Your task to perform on an android device: Find the nearest electronics store that's open now Image 0: 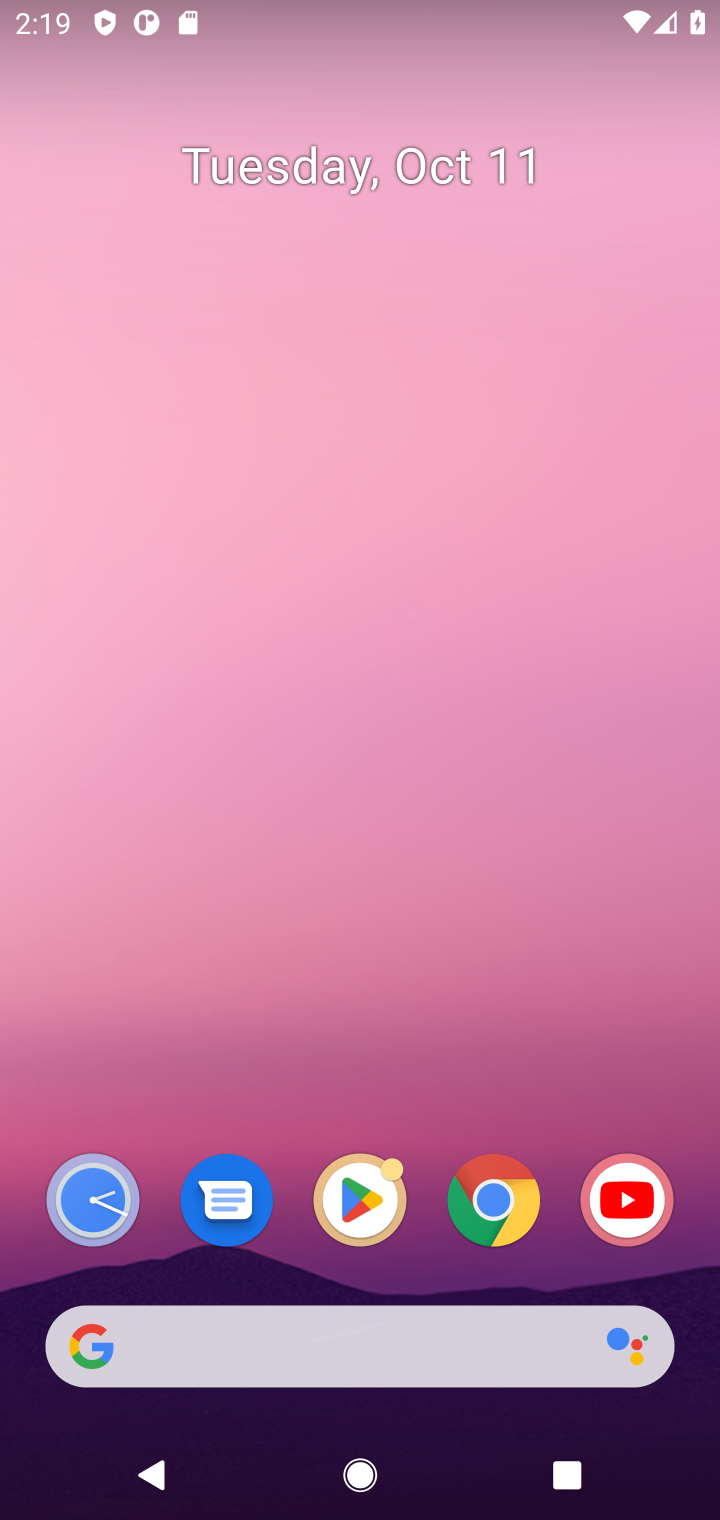
Step 0: click (489, 1227)
Your task to perform on an android device: Find the nearest electronics store that's open now Image 1: 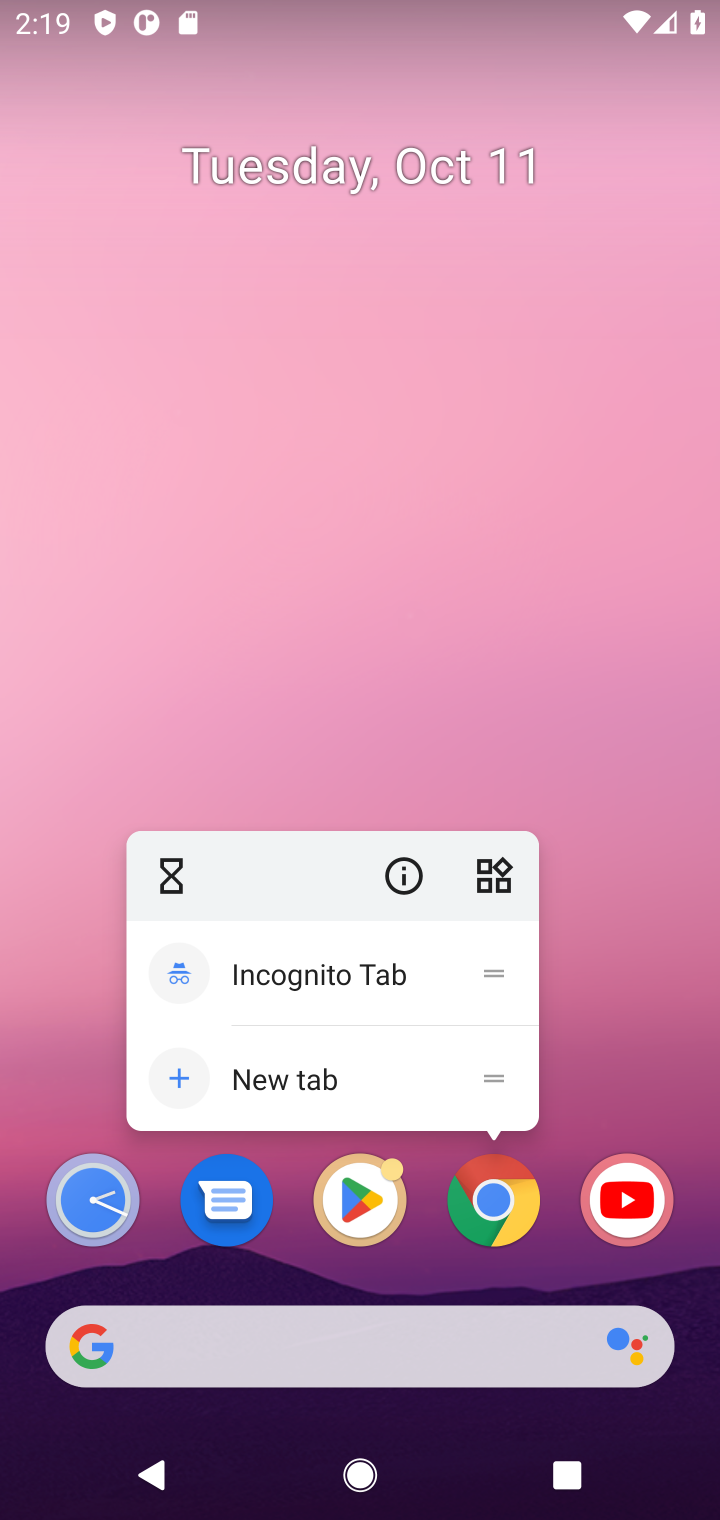
Step 1: drag from (496, 1253) to (690, 13)
Your task to perform on an android device: Find the nearest electronics store that's open now Image 2: 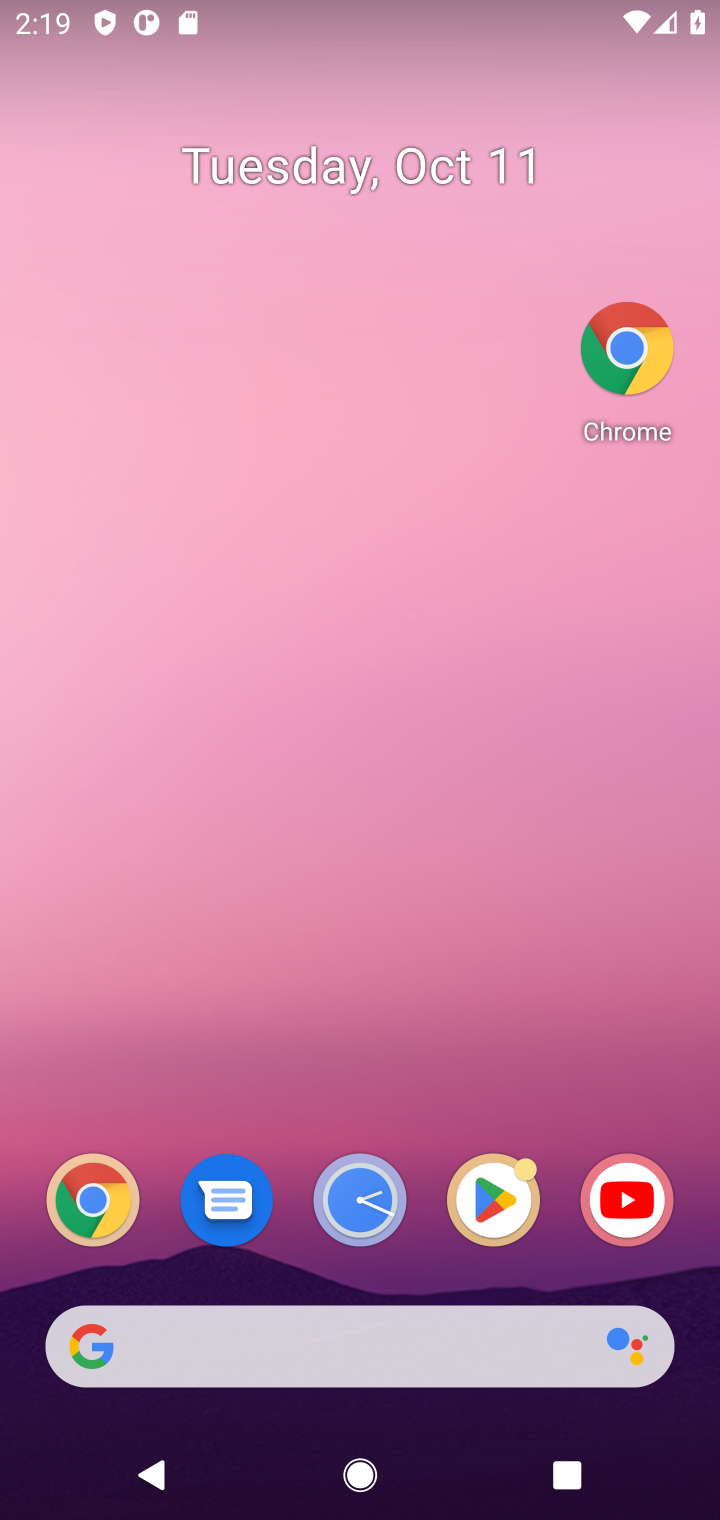
Step 2: drag from (430, 1290) to (473, 236)
Your task to perform on an android device: Find the nearest electronics store that's open now Image 3: 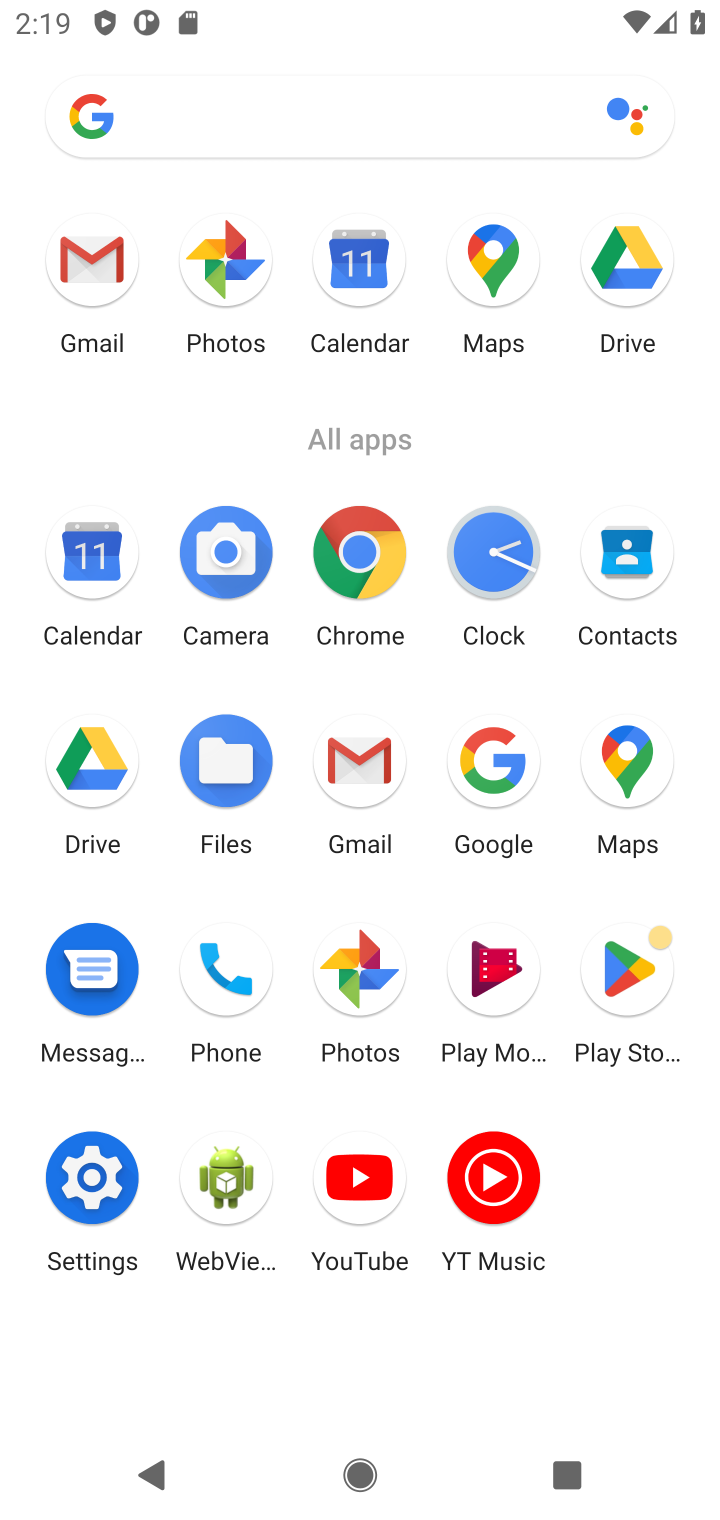
Step 3: click (368, 550)
Your task to perform on an android device: Find the nearest electronics store that's open now Image 4: 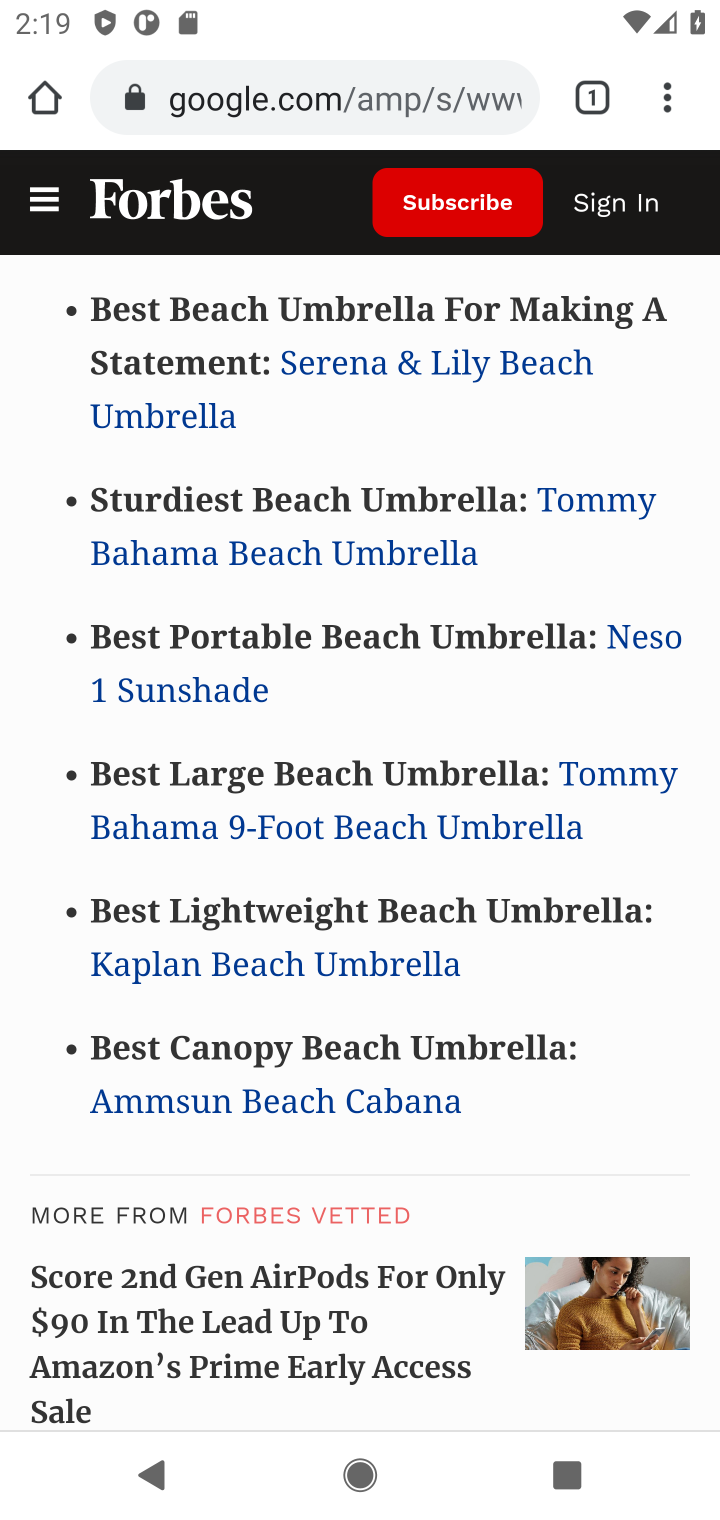
Step 4: click (385, 119)
Your task to perform on an android device: Find the nearest electronics store that's open now Image 5: 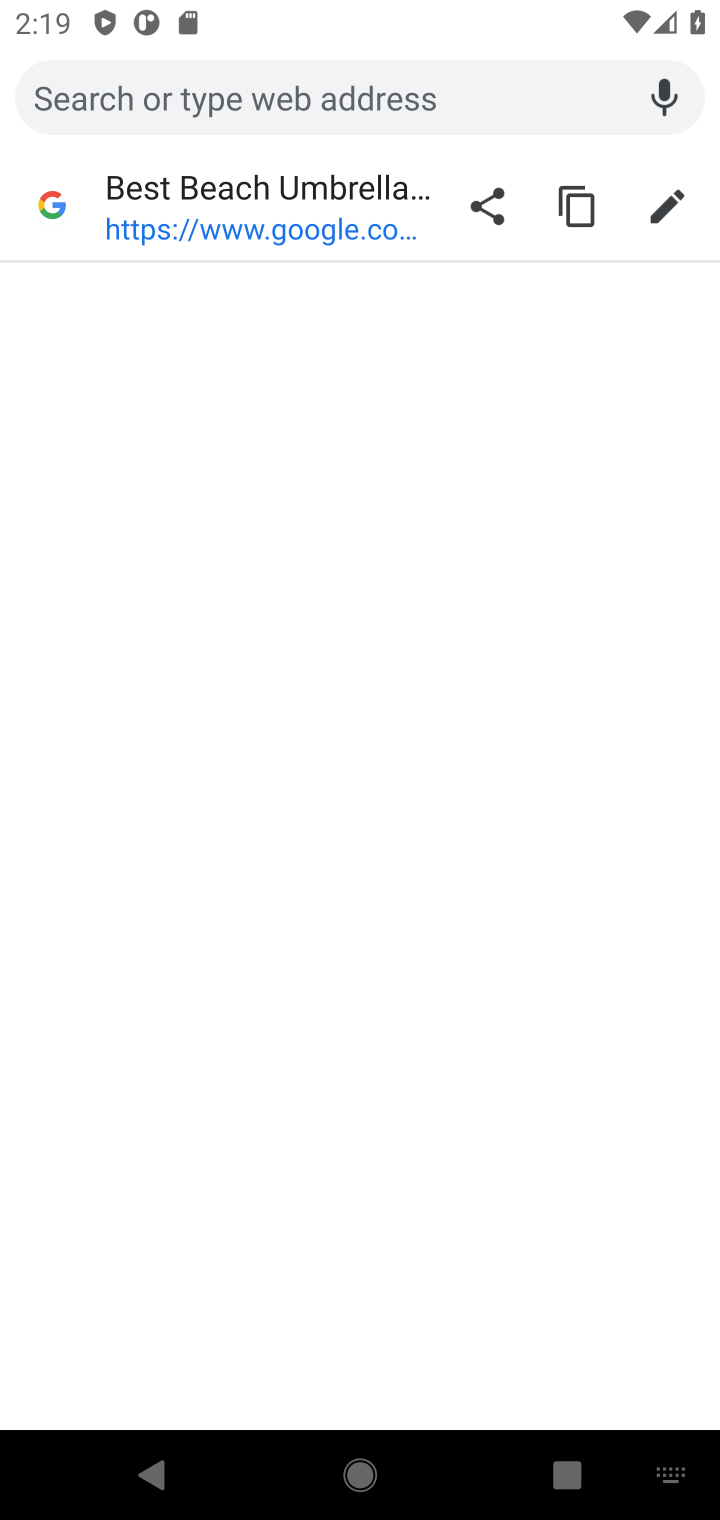
Step 5: type "electronics store that's open now"
Your task to perform on an android device: Find the nearest electronics store that's open now Image 6: 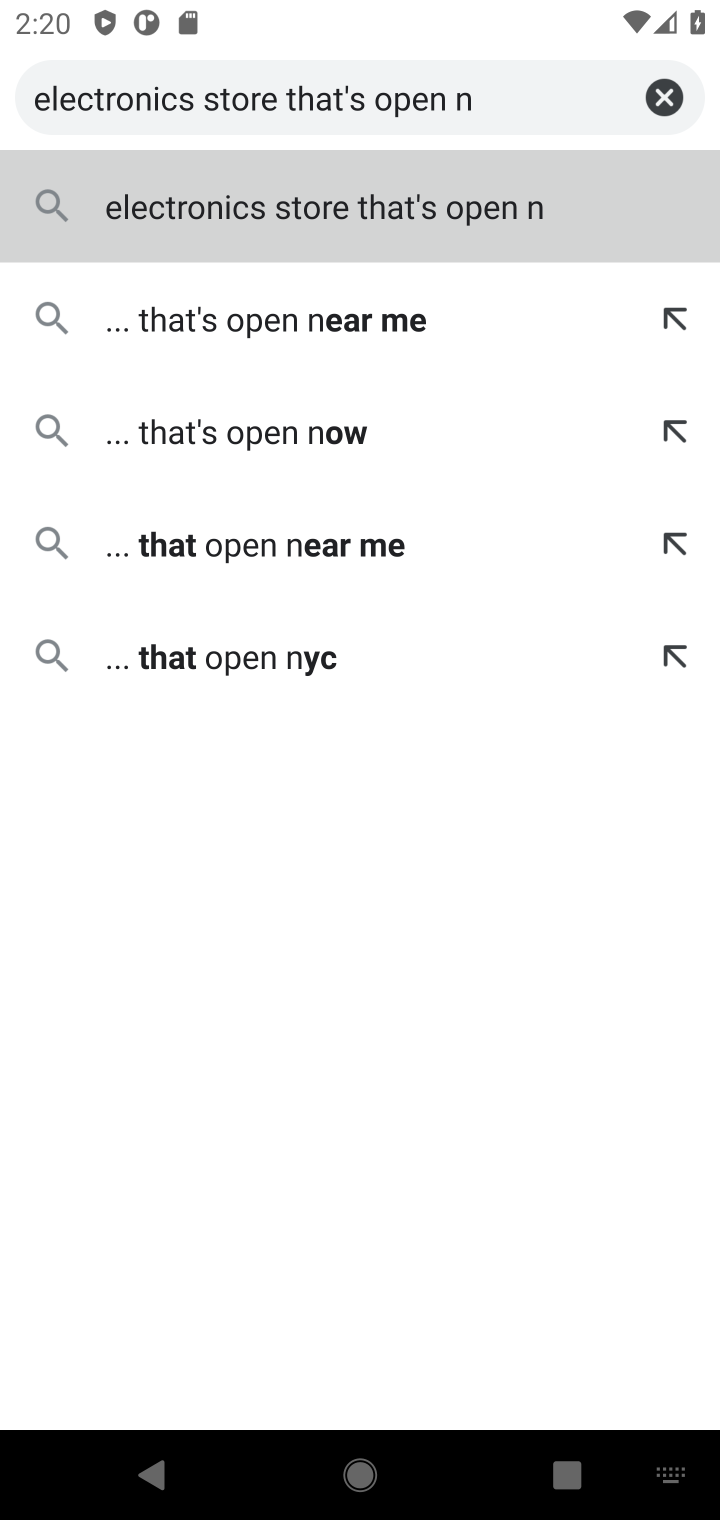
Step 6: type ""
Your task to perform on an android device: Find the nearest electronics store that's open now Image 7: 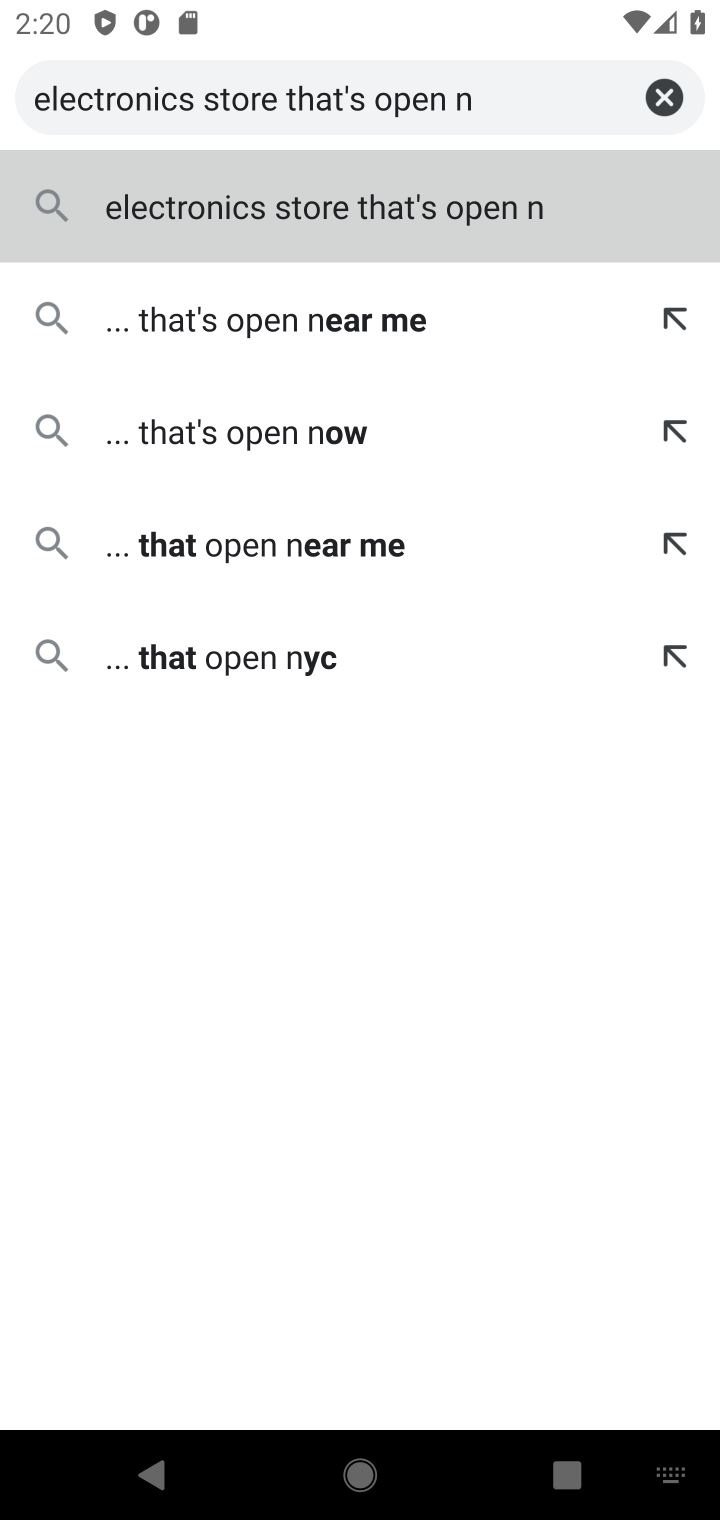
Step 7: click (431, 327)
Your task to perform on an android device: Find the nearest electronics store that's open now Image 8: 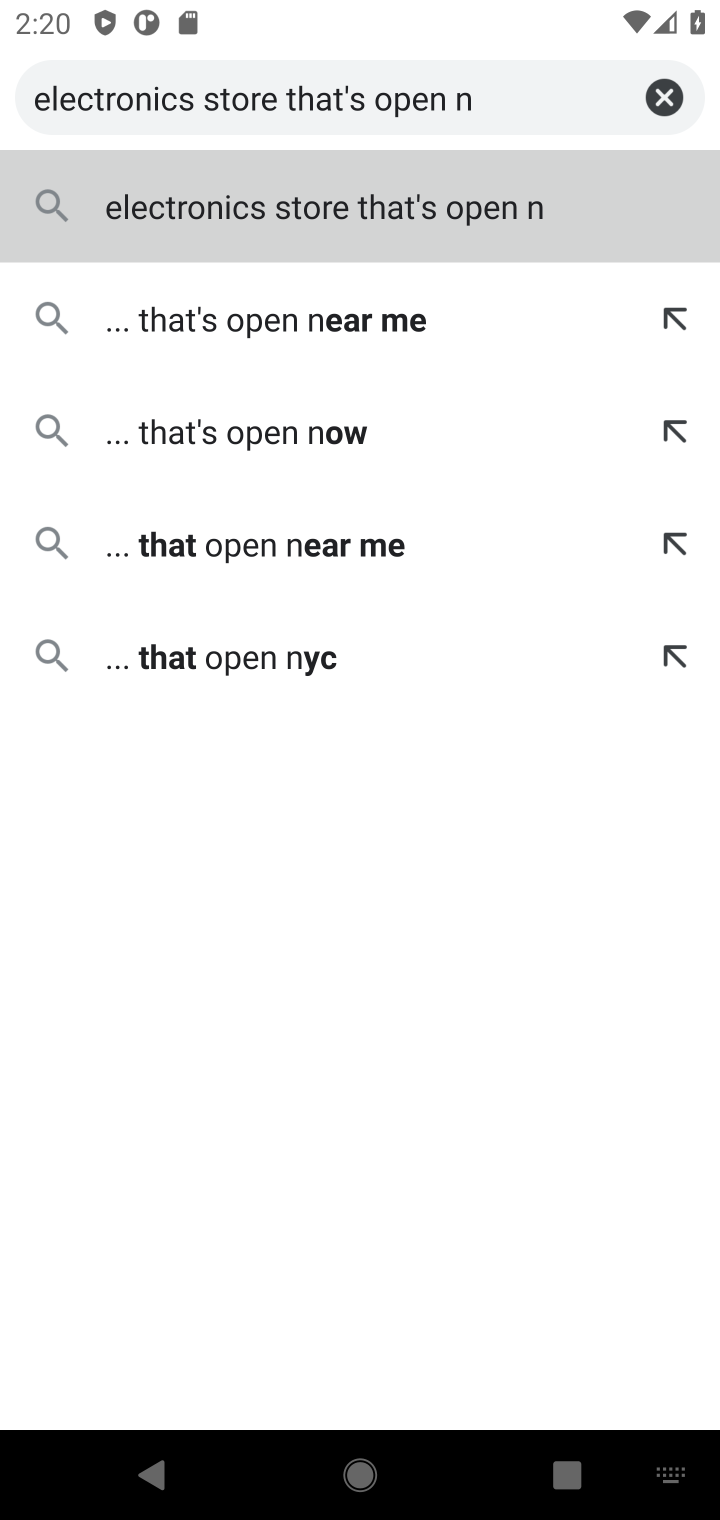
Step 8: click (332, 203)
Your task to perform on an android device: Find the nearest electronics store that's open now Image 9: 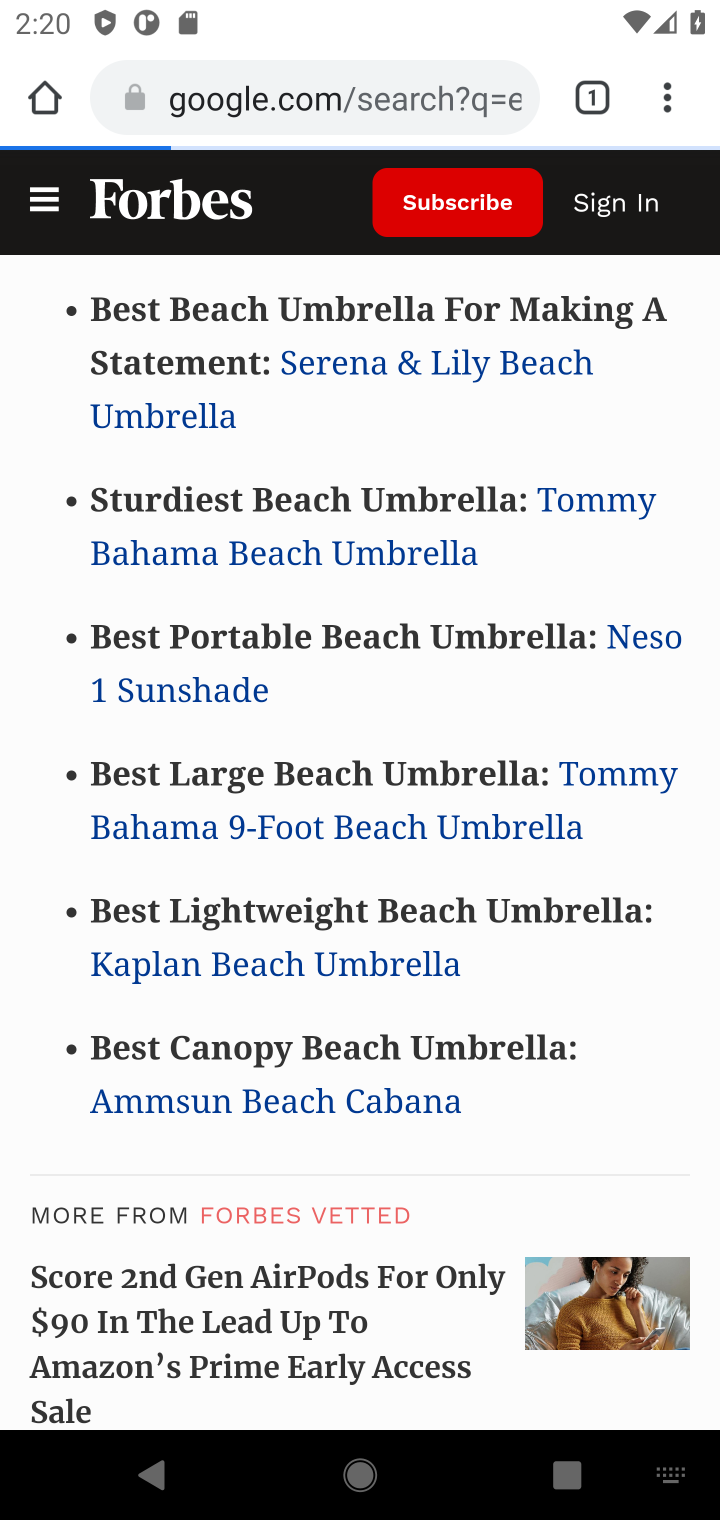
Step 9: click (378, 308)
Your task to perform on an android device: Find the nearest electronics store that's open now Image 10: 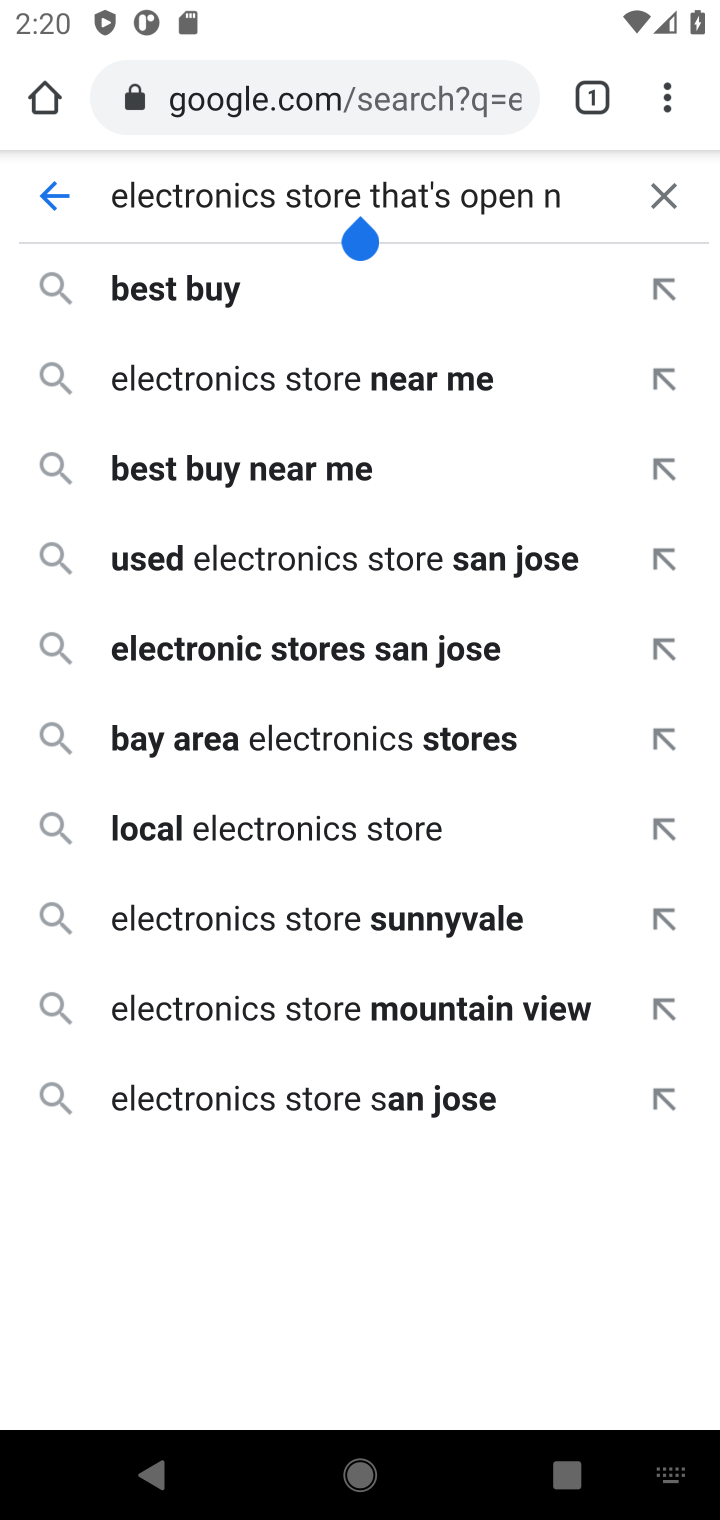
Step 10: click (385, 401)
Your task to perform on an android device: Find the nearest electronics store that's open now Image 11: 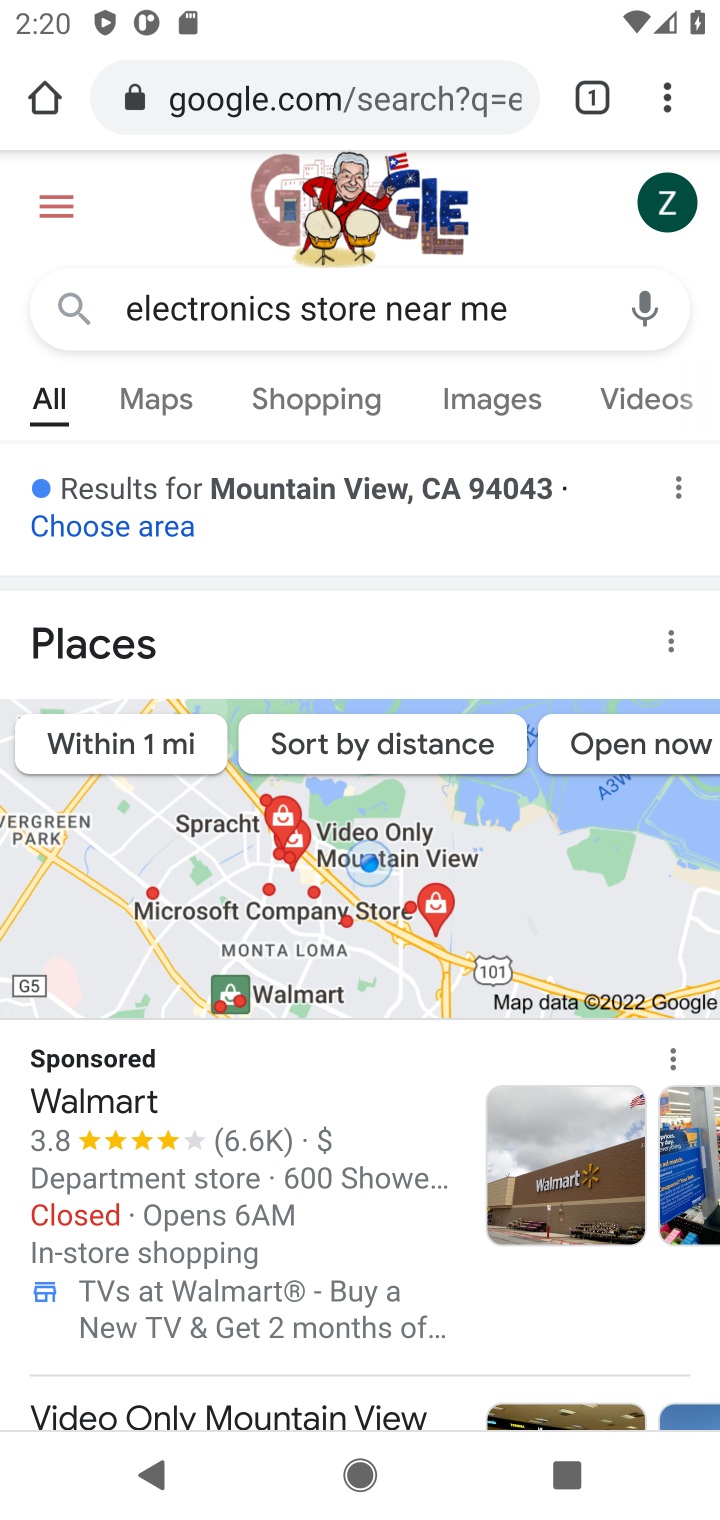
Step 11: drag from (515, 1160) to (492, 428)
Your task to perform on an android device: Find the nearest electronics store that's open now Image 12: 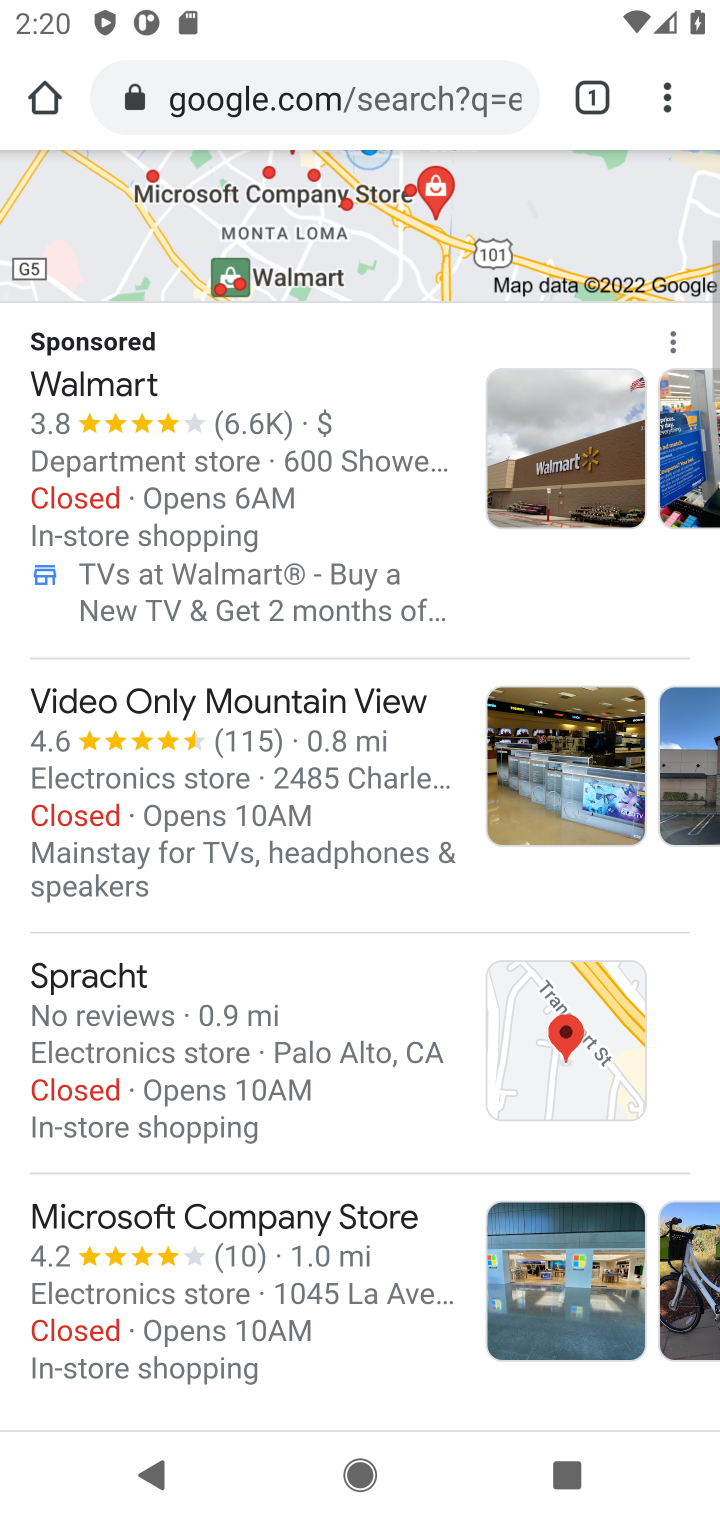
Step 12: drag from (523, 1109) to (520, 477)
Your task to perform on an android device: Find the nearest electronics store that's open now Image 13: 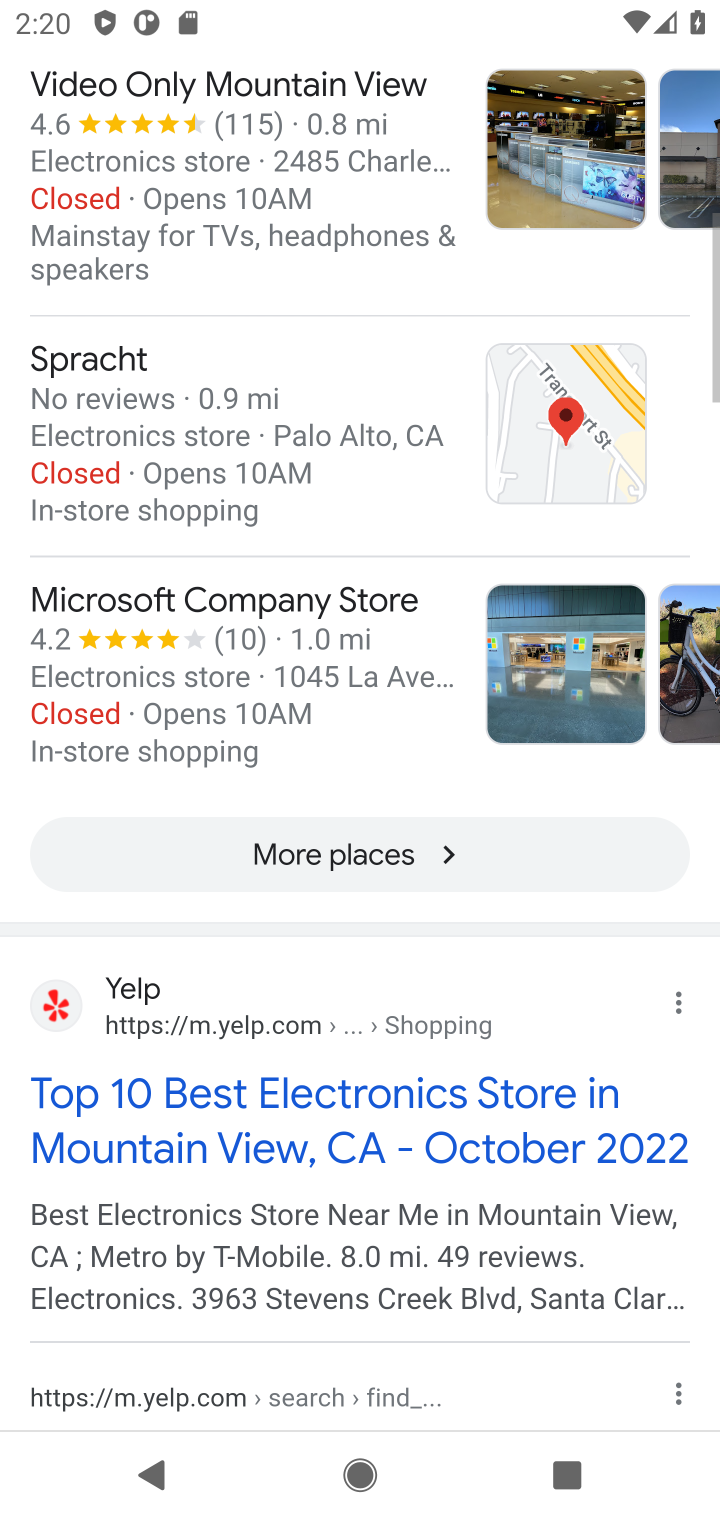
Step 13: click (370, 494)
Your task to perform on an android device: Find the nearest electronics store that's open now Image 14: 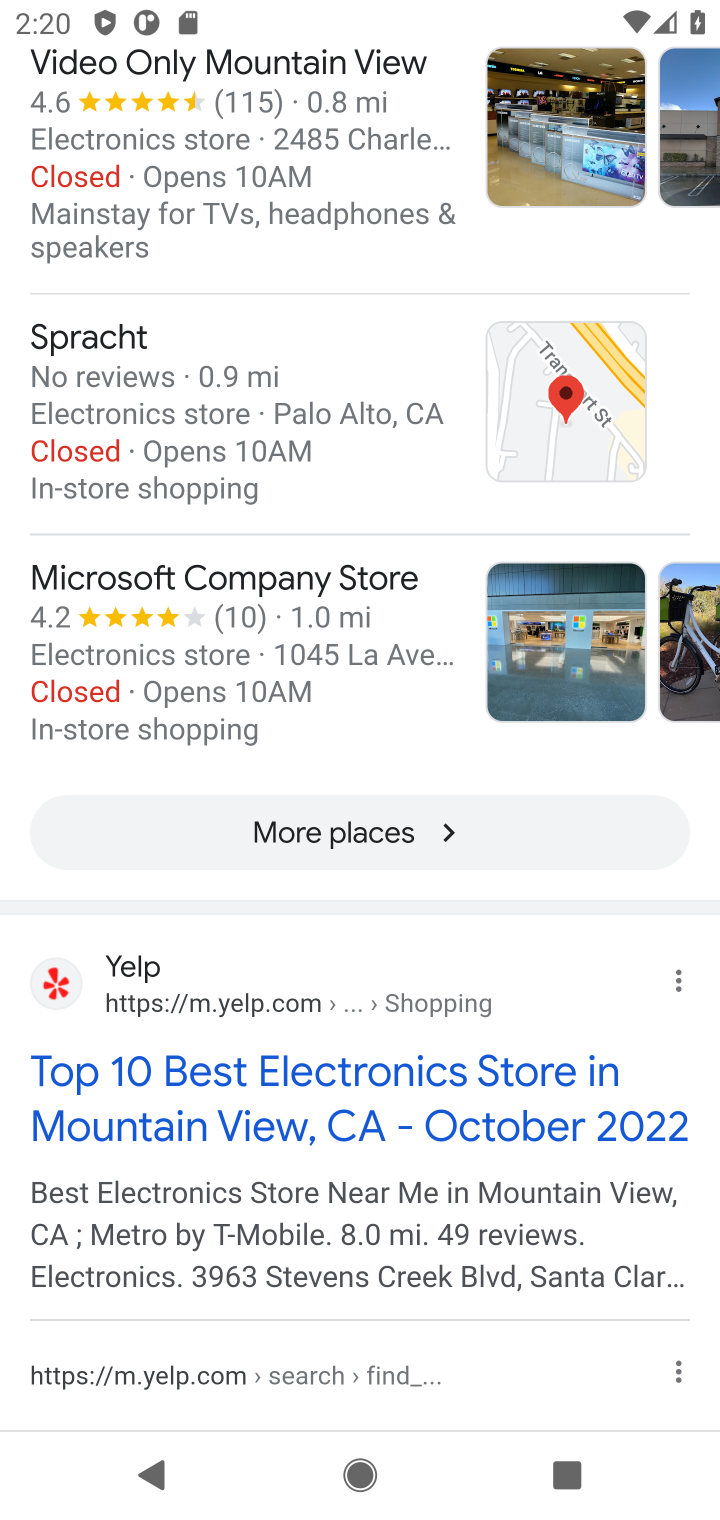
Step 14: drag from (370, 901) to (399, 287)
Your task to perform on an android device: Find the nearest electronics store that's open now Image 15: 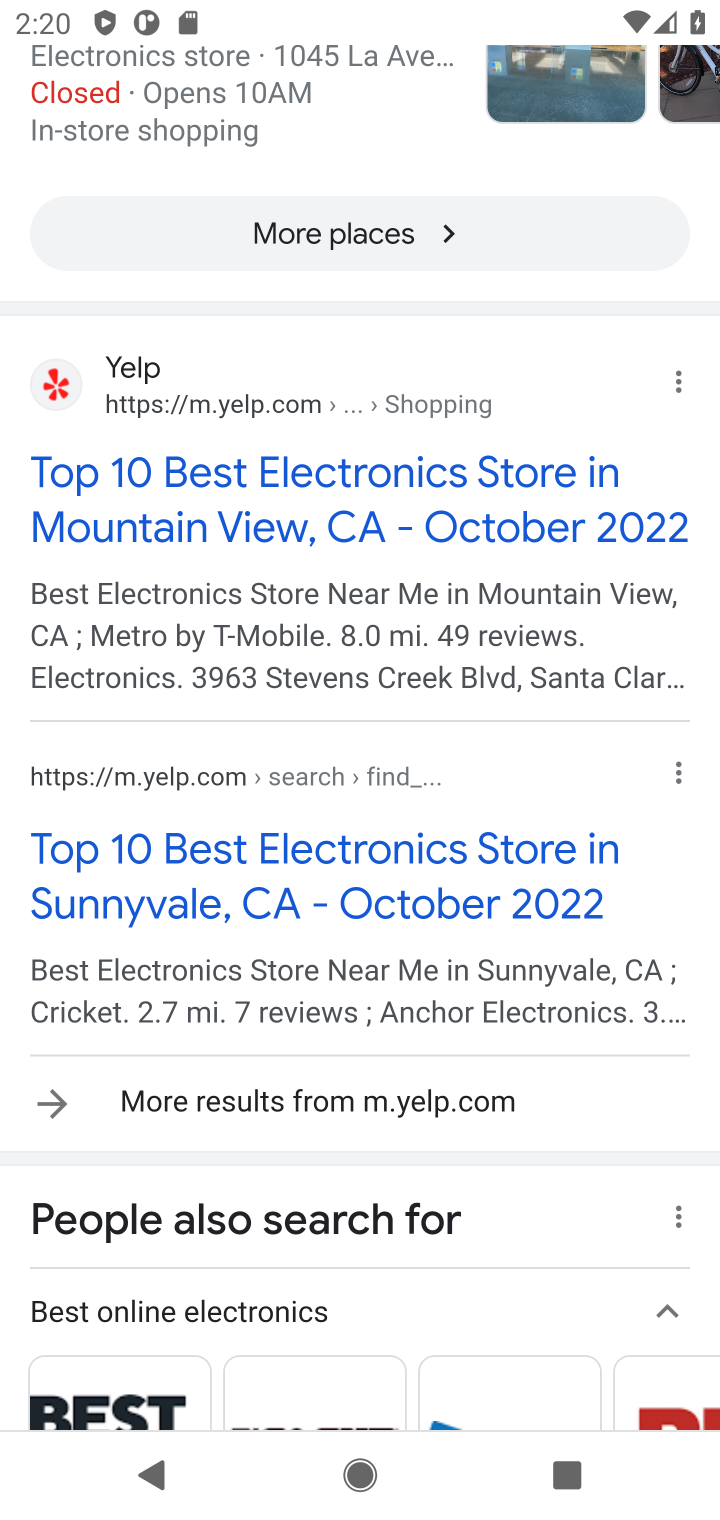
Step 15: click (312, 823)
Your task to perform on an android device: Find the nearest electronics store that's open now Image 16: 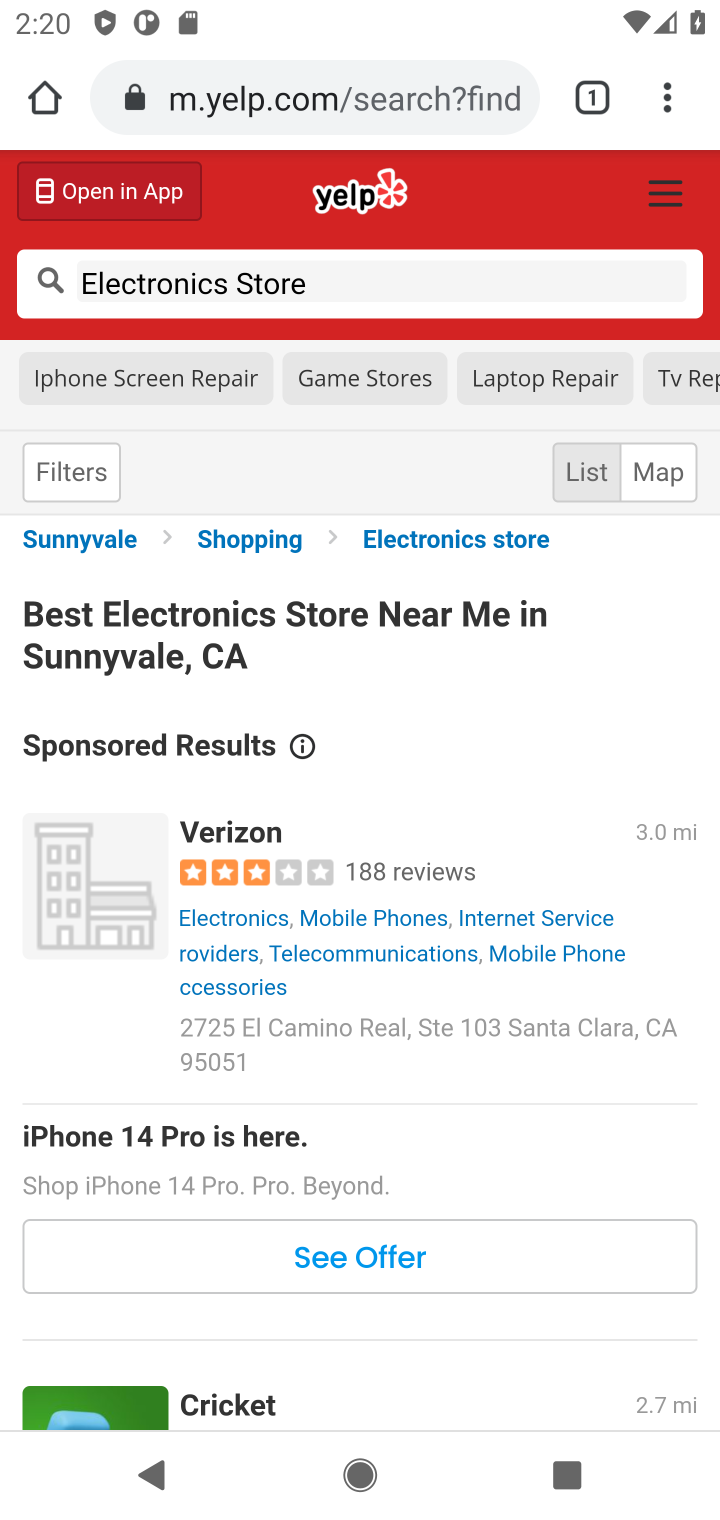
Step 16: drag from (443, 946) to (453, 303)
Your task to perform on an android device: Find the nearest electronics store that's open now Image 17: 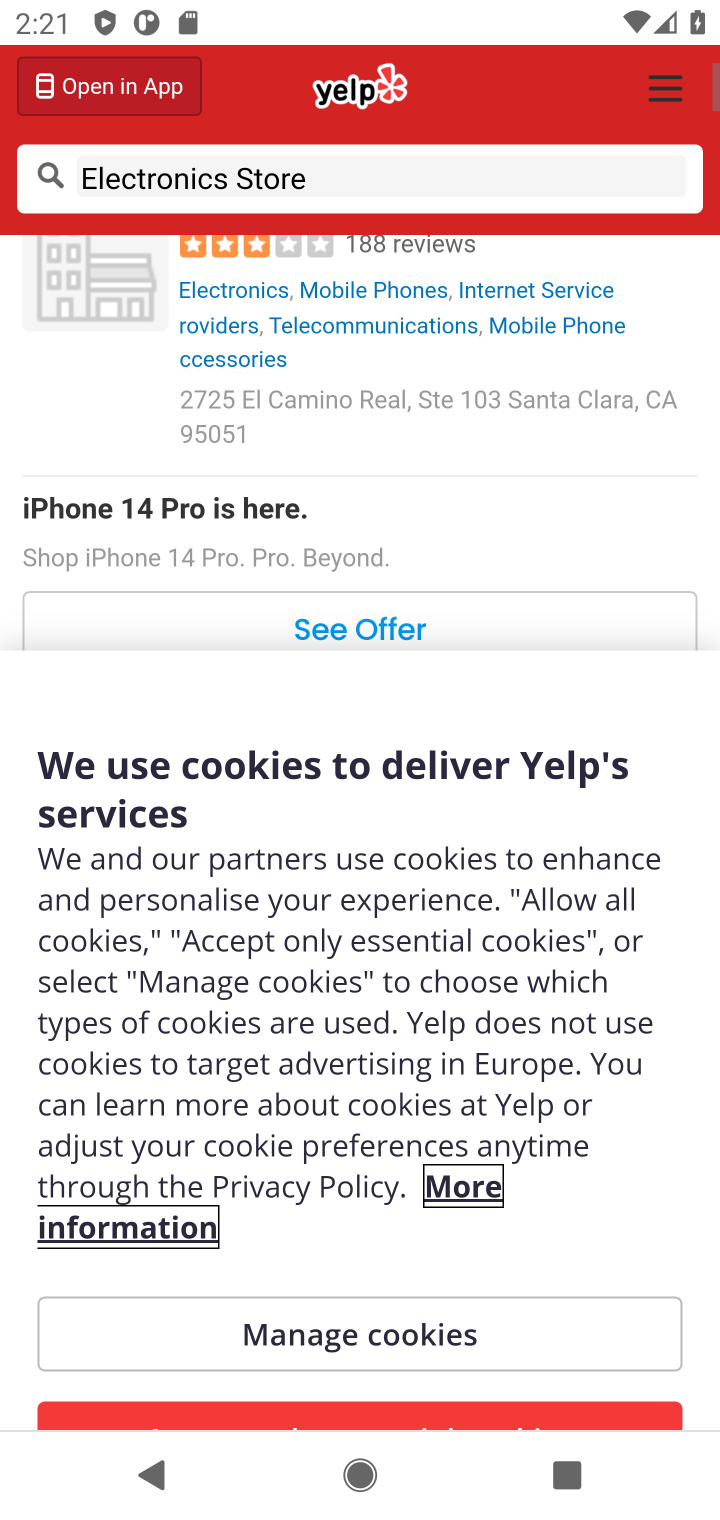
Step 17: drag from (454, 1095) to (483, 560)
Your task to perform on an android device: Find the nearest electronics store that's open now Image 18: 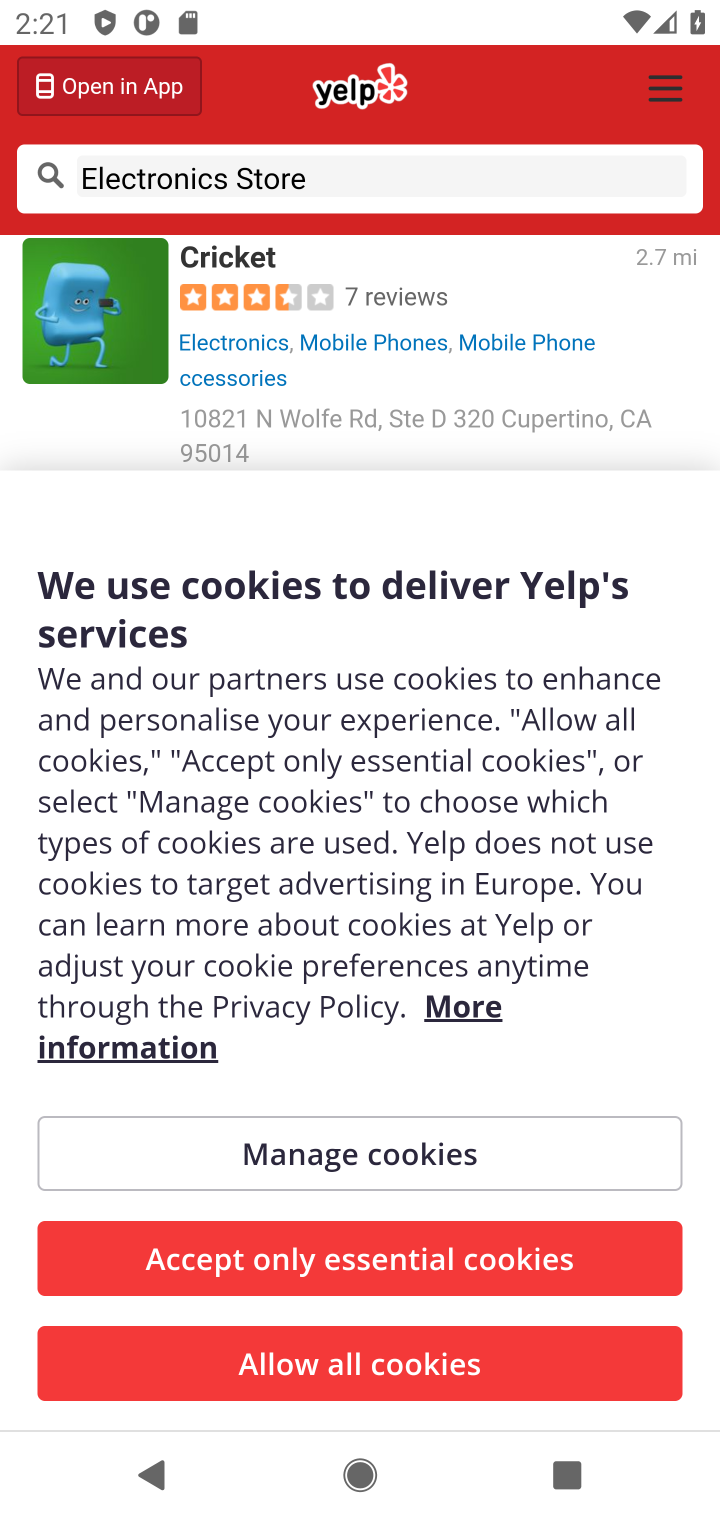
Step 18: click (390, 1389)
Your task to perform on an android device: Find the nearest electronics store that's open now Image 19: 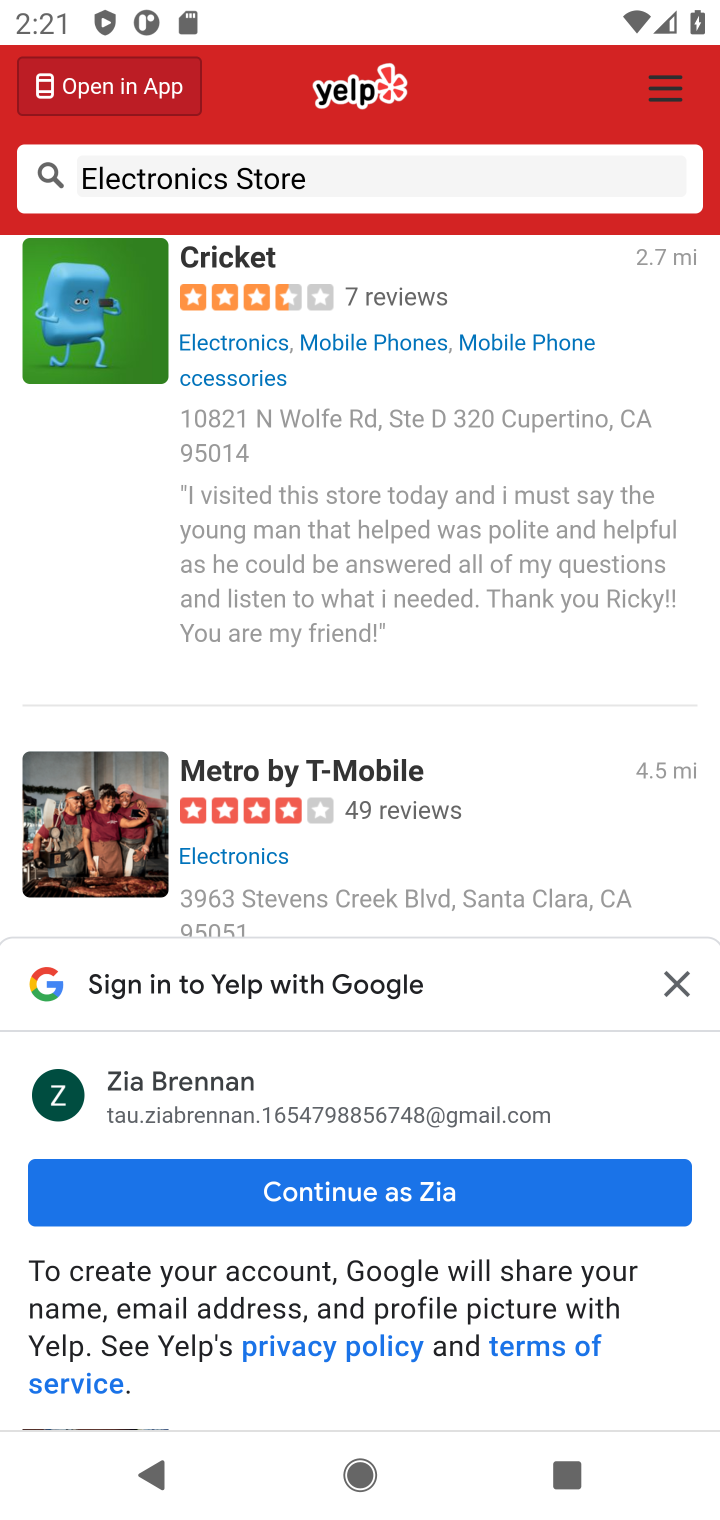
Step 19: click (680, 968)
Your task to perform on an android device: Find the nearest electronics store that's open now Image 20: 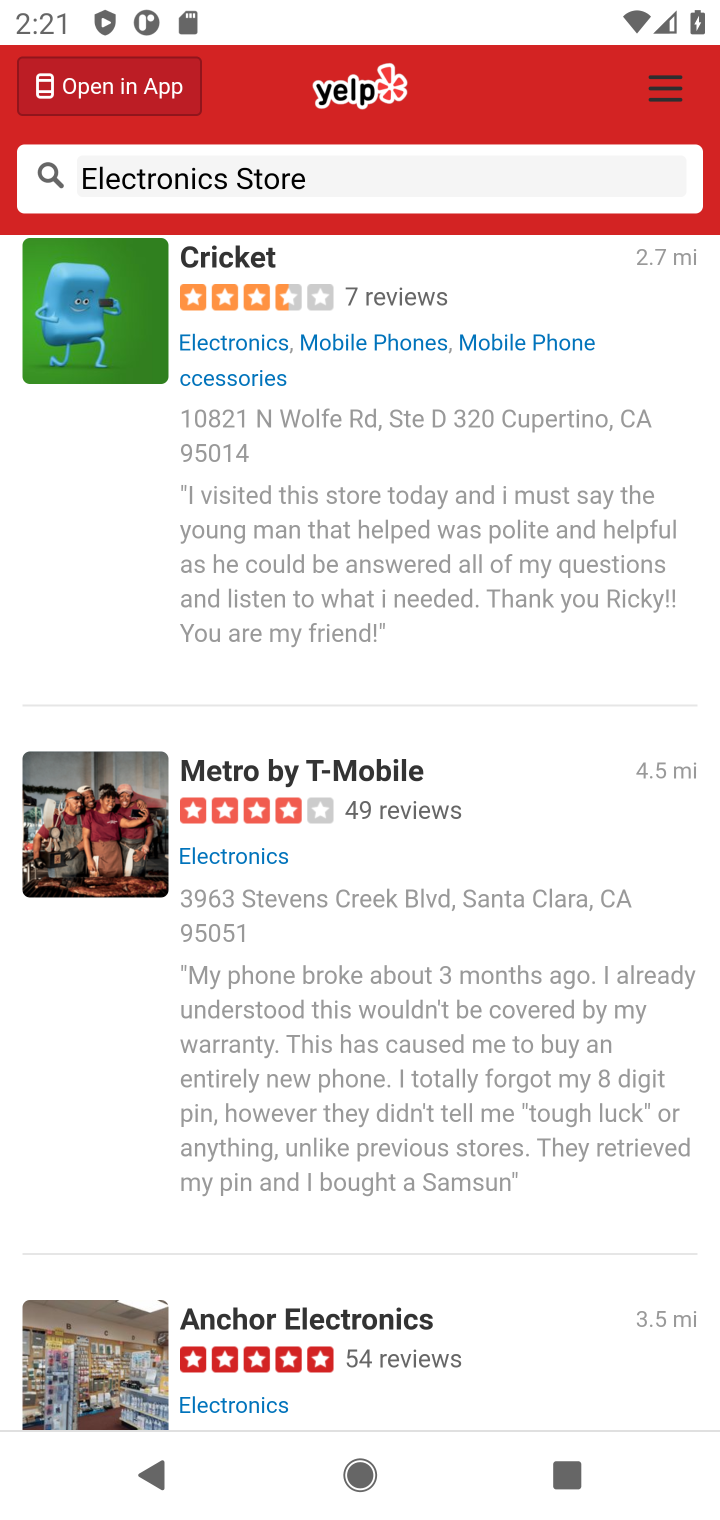
Step 20: drag from (573, 752) to (567, 229)
Your task to perform on an android device: Find the nearest electronics store that's open now Image 21: 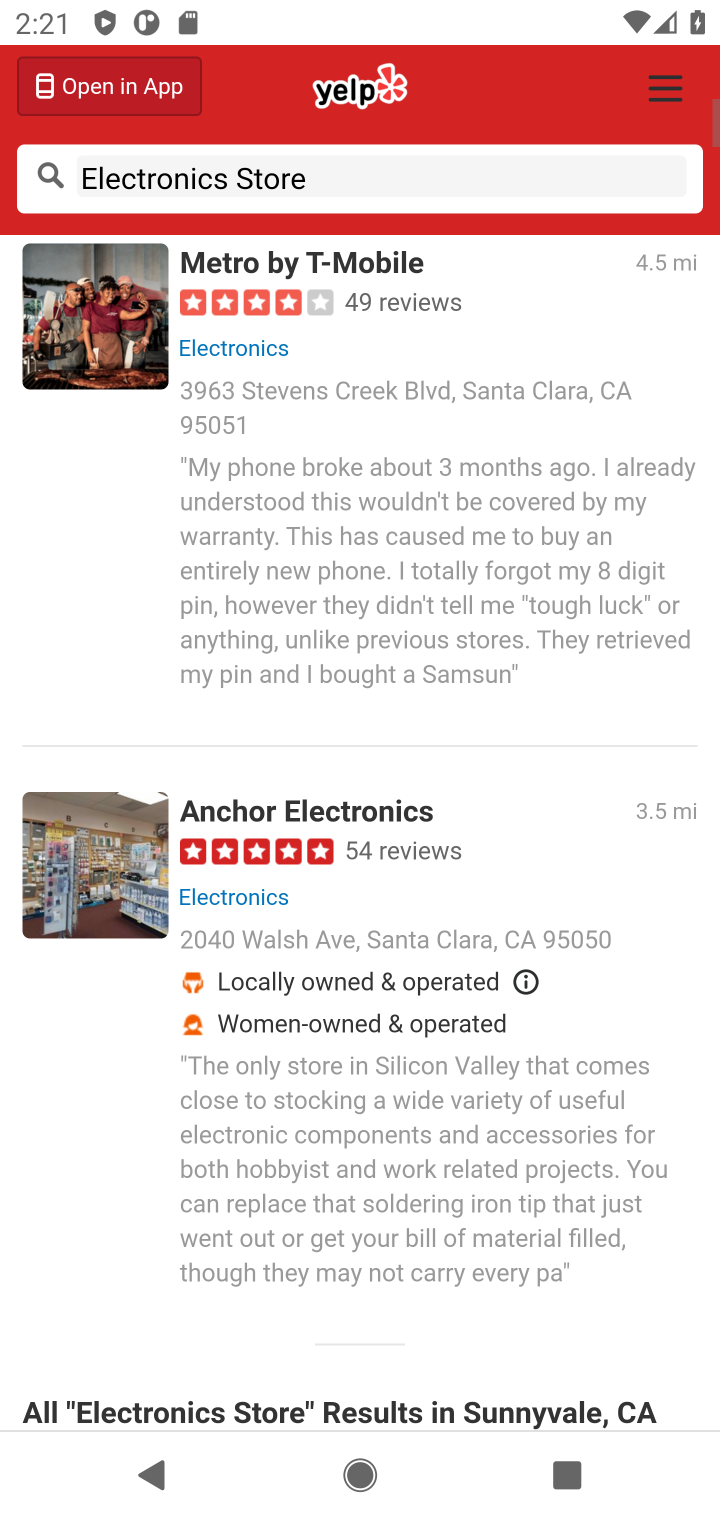
Step 21: drag from (472, 784) to (459, 371)
Your task to perform on an android device: Find the nearest electronics store that's open now Image 22: 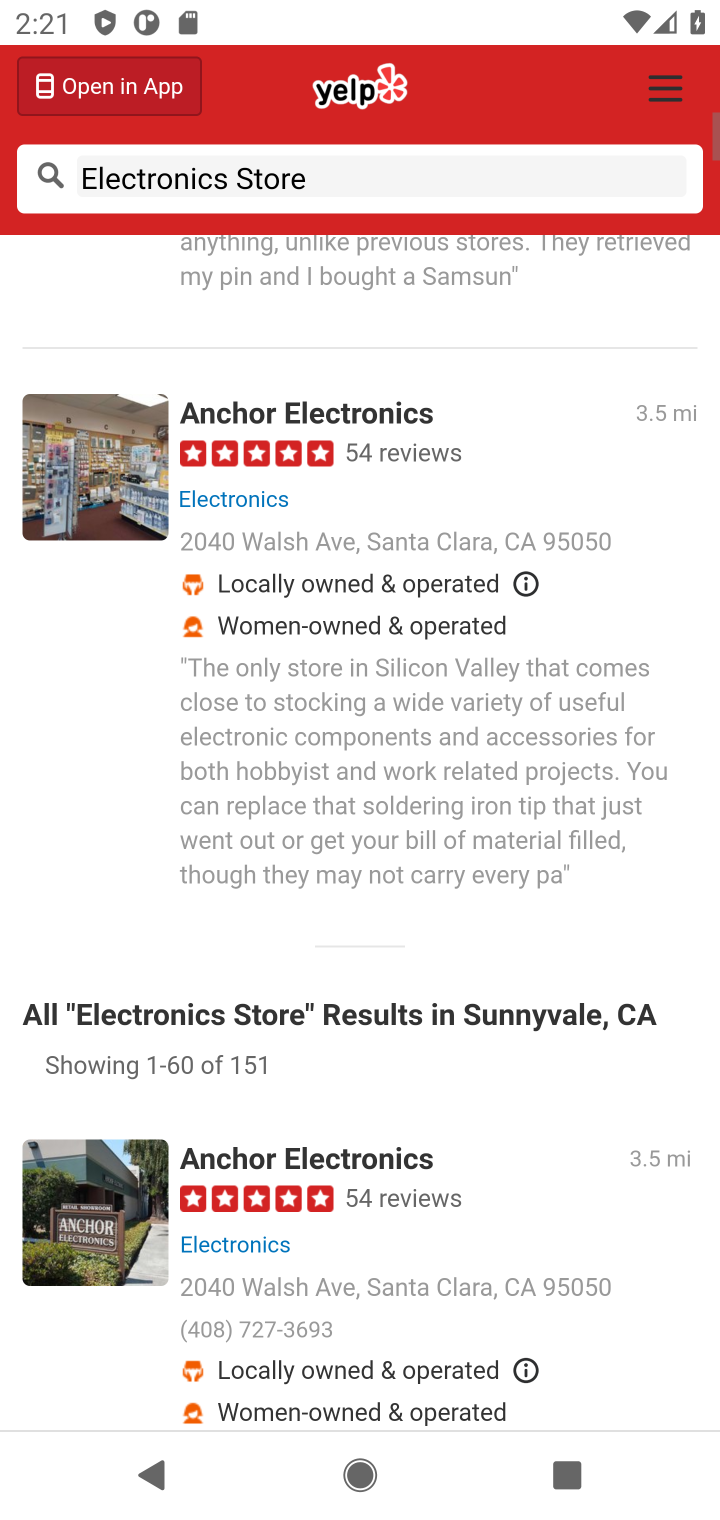
Step 22: drag from (484, 570) to (487, 410)
Your task to perform on an android device: Find the nearest electronics store that's open now Image 23: 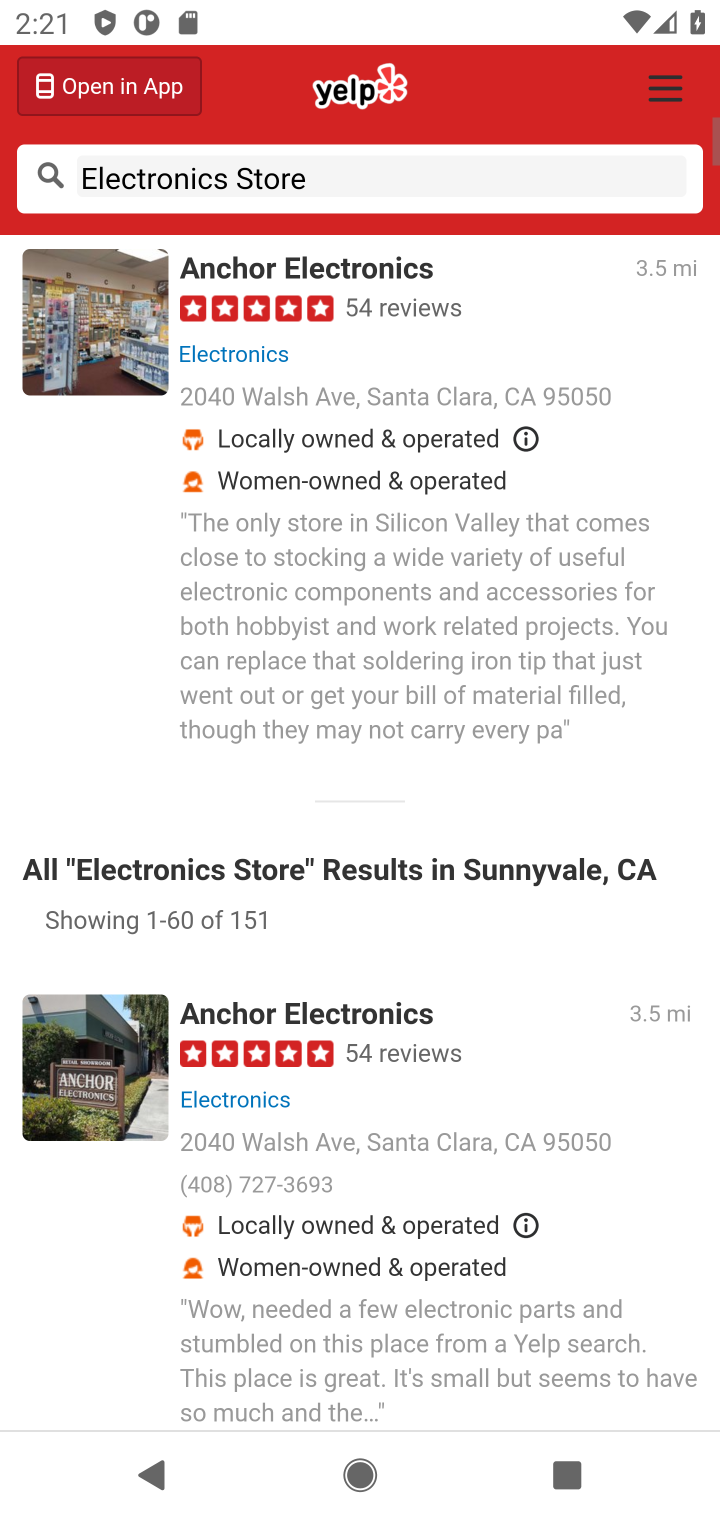
Step 23: drag from (355, 778) to (346, 309)
Your task to perform on an android device: Find the nearest electronics store that's open now Image 24: 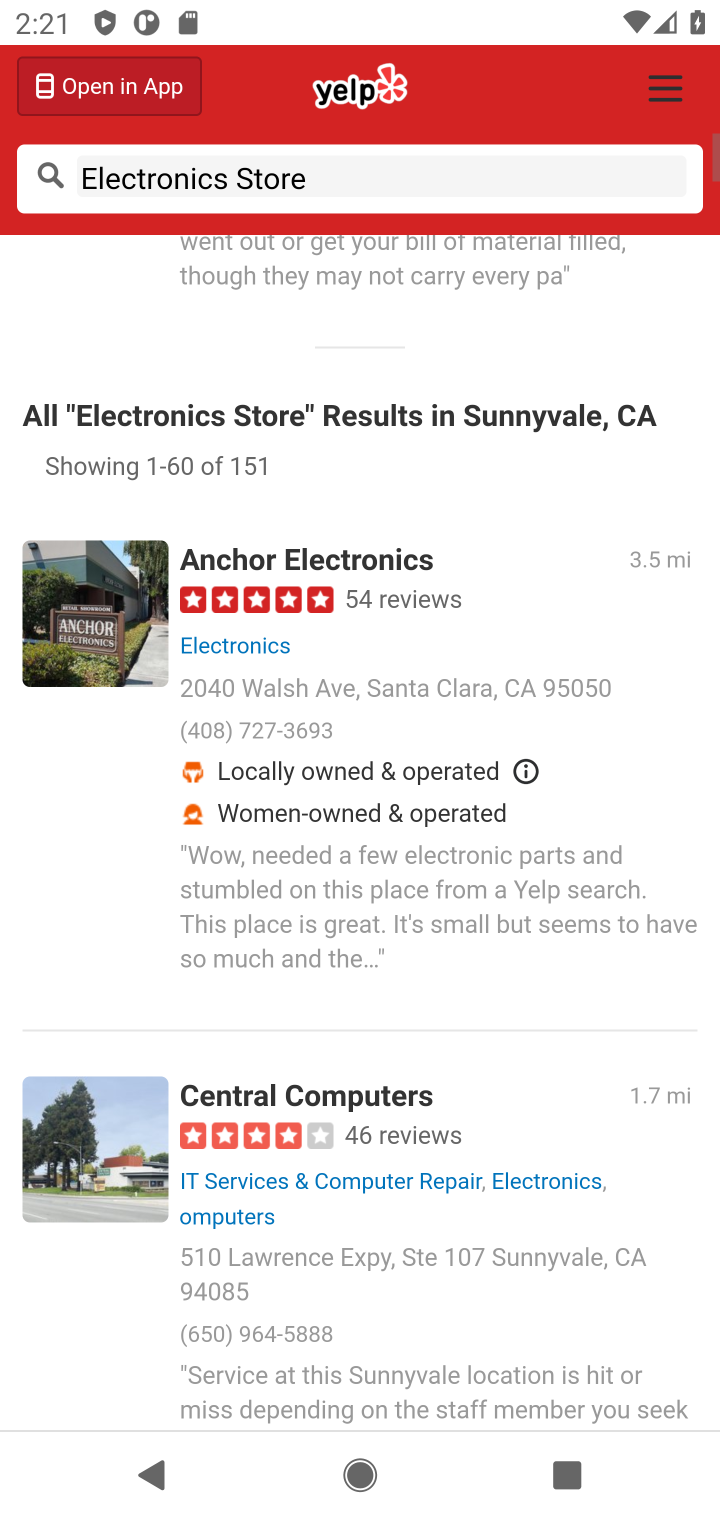
Step 24: drag from (343, 461) to (353, 313)
Your task to perform on an android device: Find the nearest electronics store that's open now Image 25: 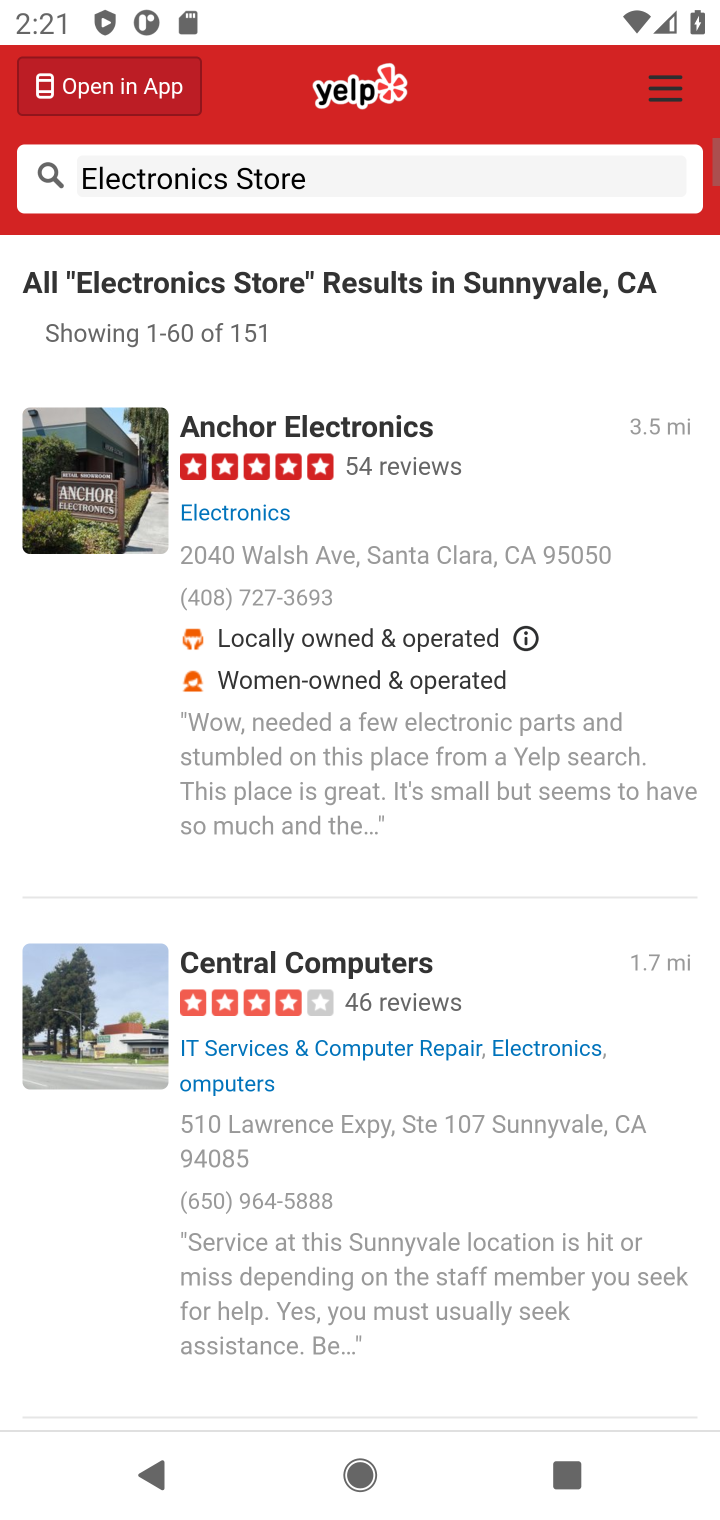
Step 25: drag from (386, 817) to (380, 391)
Your task to perform on an android device: Find the nearest electronics store that's open now Image 26: 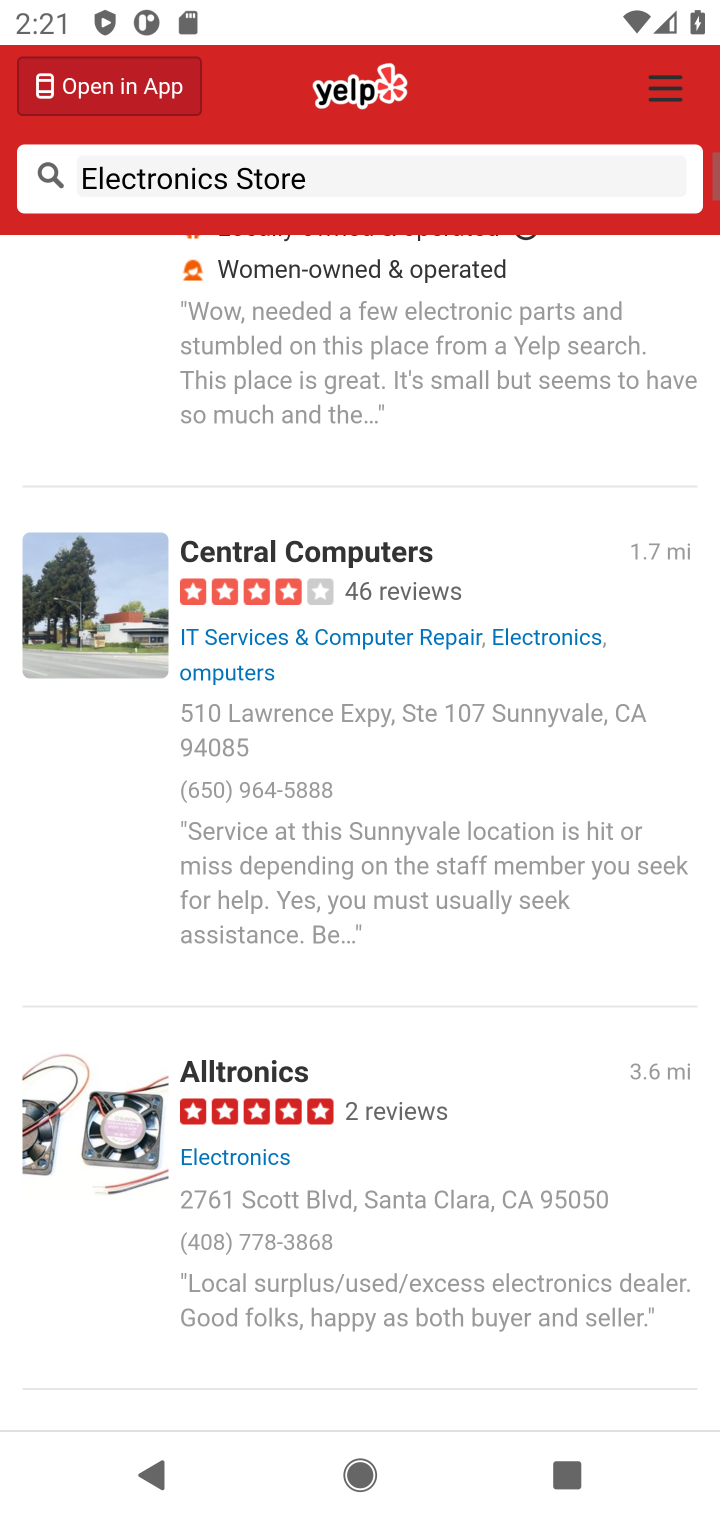
Step 26: drag from (346, 1024) to (392, 311)
Your task to perform on an android device: Find the nearest electronics store that's open now Image 27: 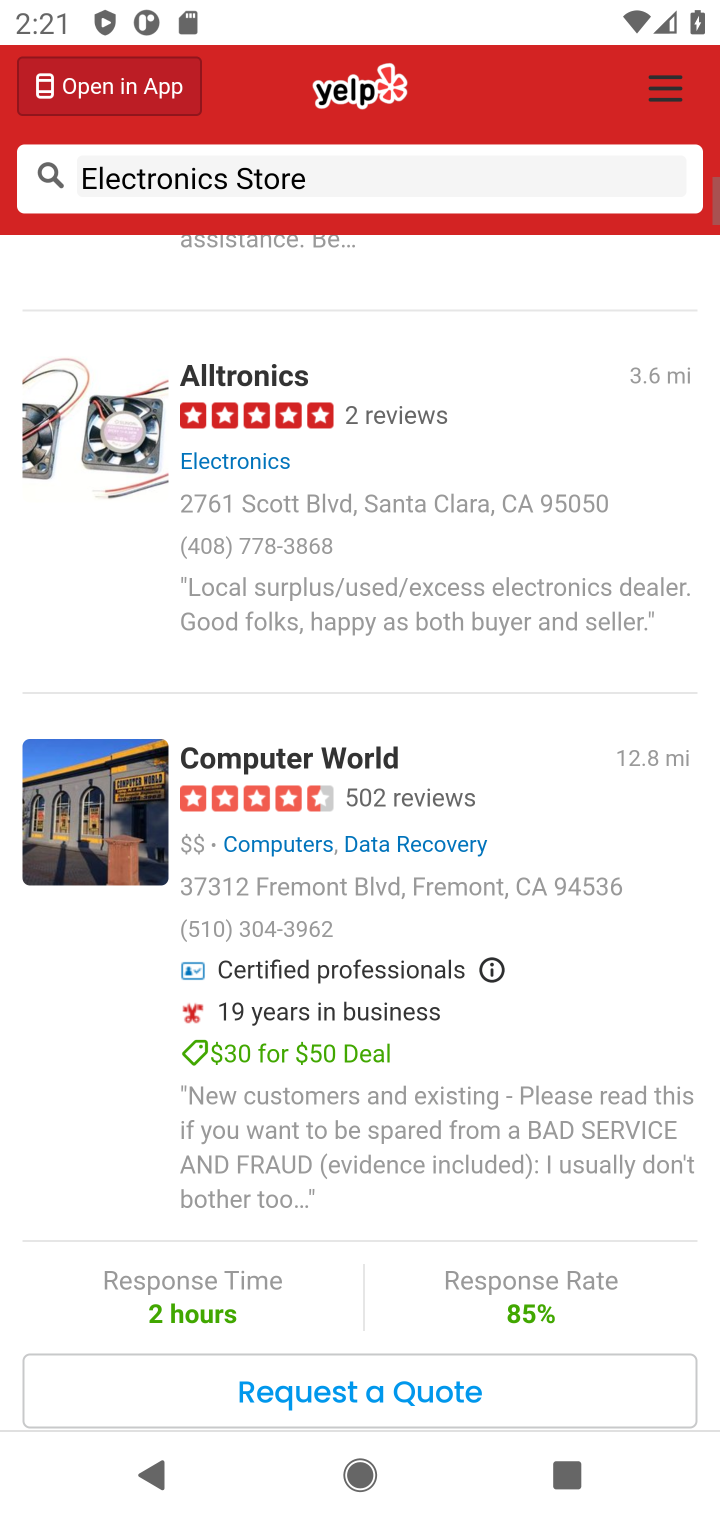
Step 27: drag from (421, 1197) to (443, 408)
Your task to perform on an android device: Find the nearest electronics store that's open now Image 28: 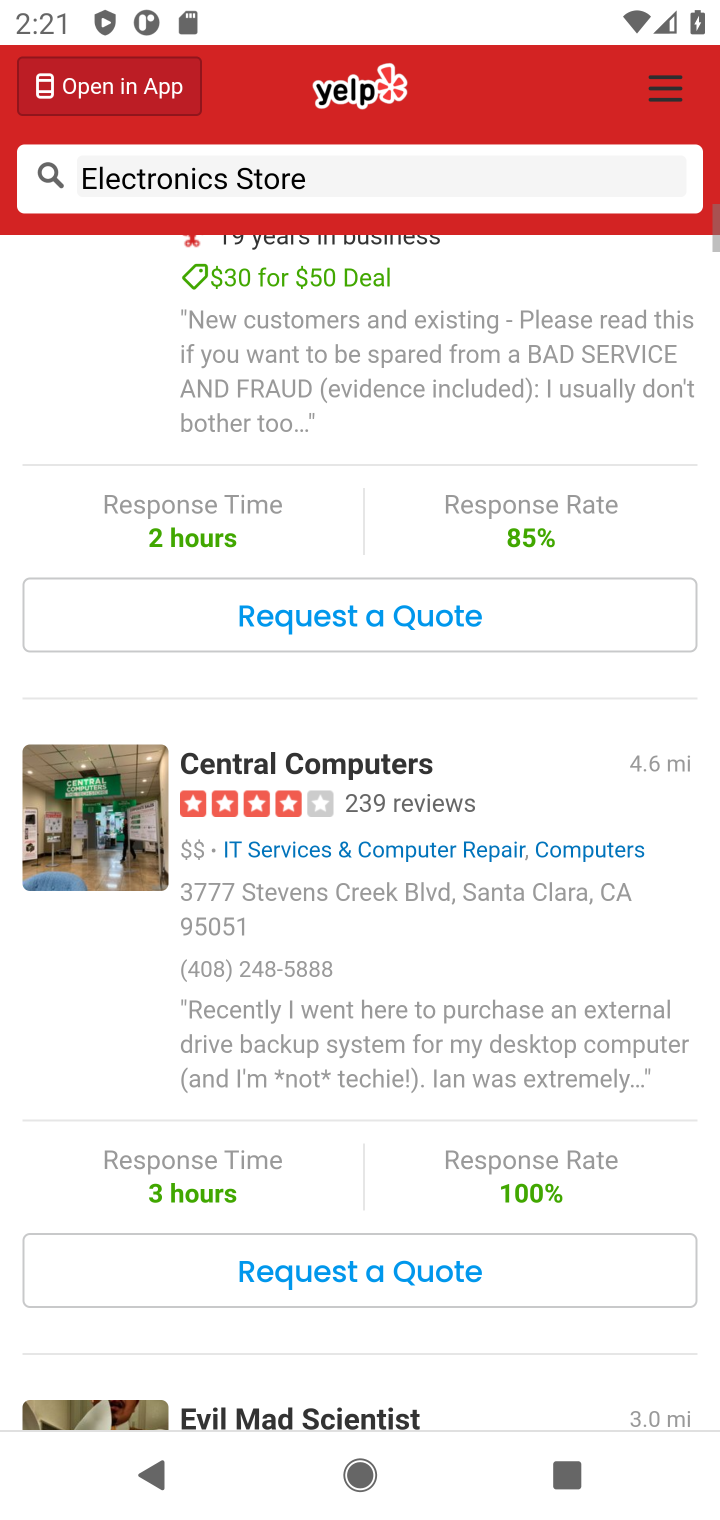
Step 28: drag from (459, 675) to (491, 470)
Your task to perform on an android device: Find the nearest electronics store that's open now Image 29: 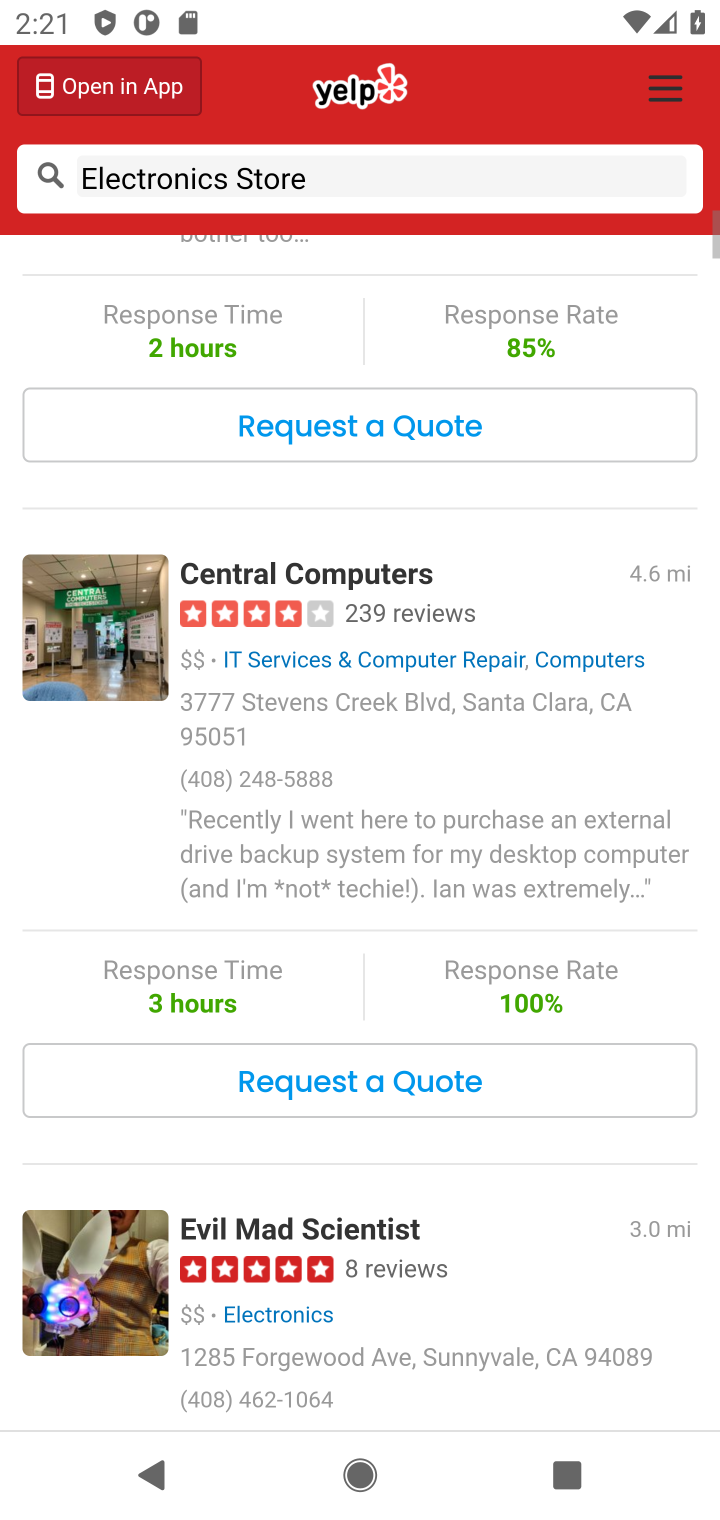
Step 29: drag from (557, 651) to (608, 333)
Your task to perform on an android device: Find the nearest electronics store that's open now Image 30: 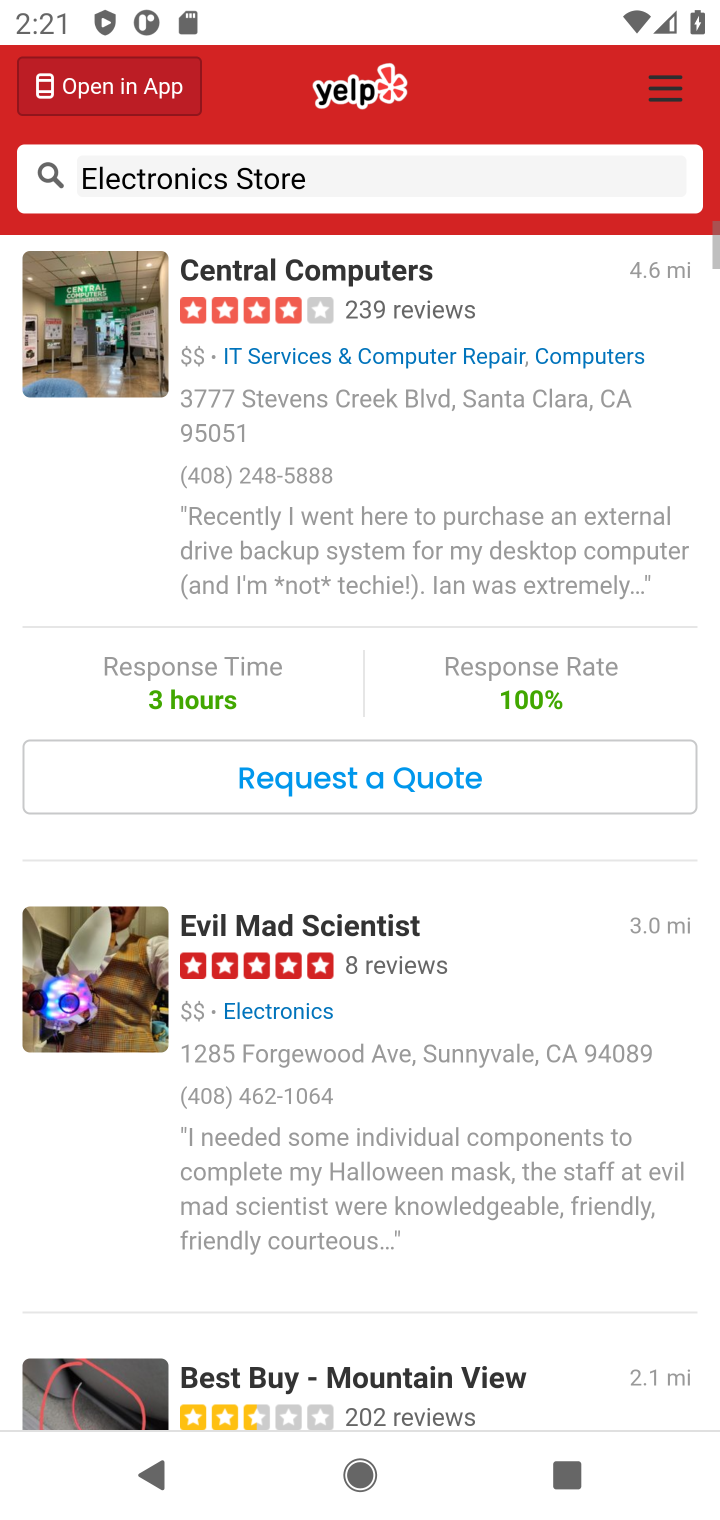
Step 30: drag from (529, 960) to (499, 535)
Your task to perform on an android device: Find the nearest electronics store that's open now Image 31: 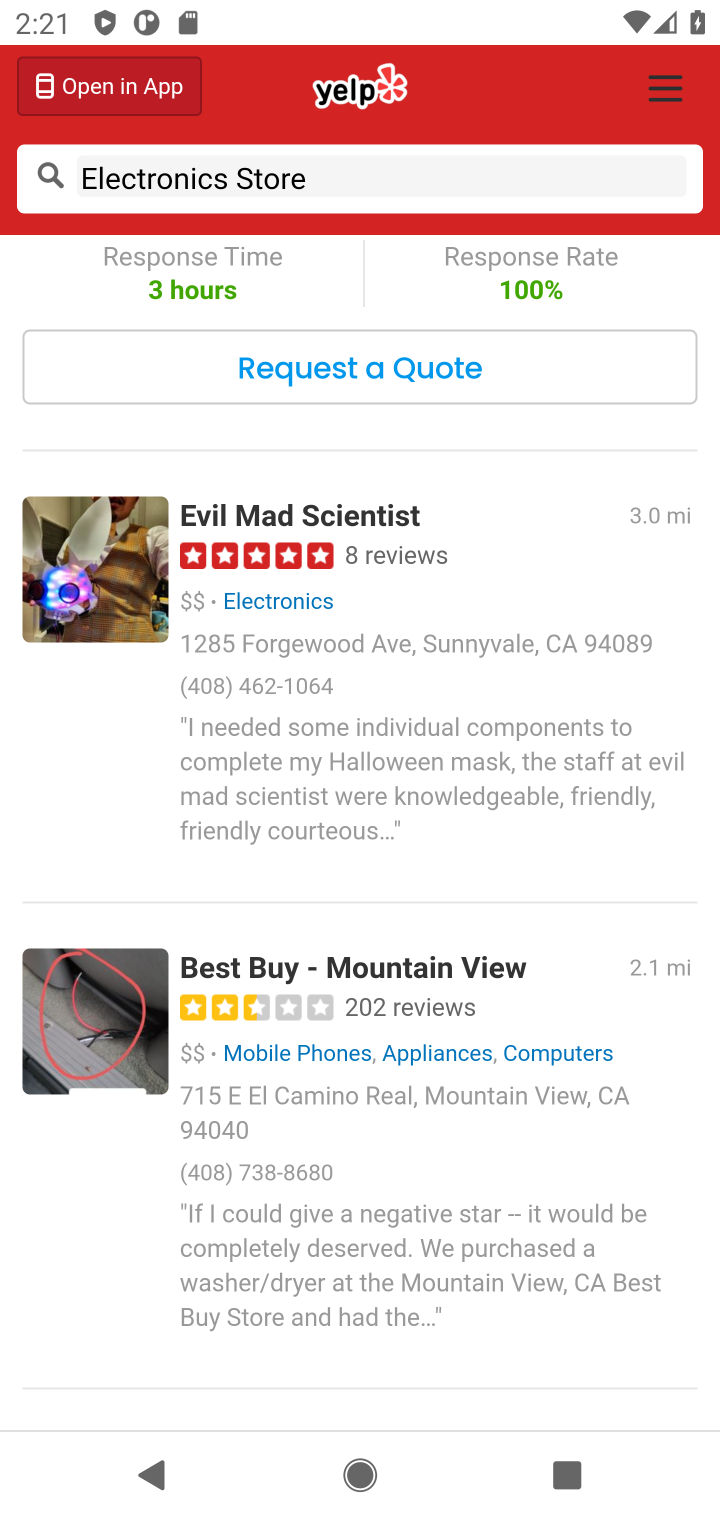
Step 31: drag from (551, 790) to (575, 601)
Your task to perform on an android device: Find the nearest electronics store that's open now Image 32: 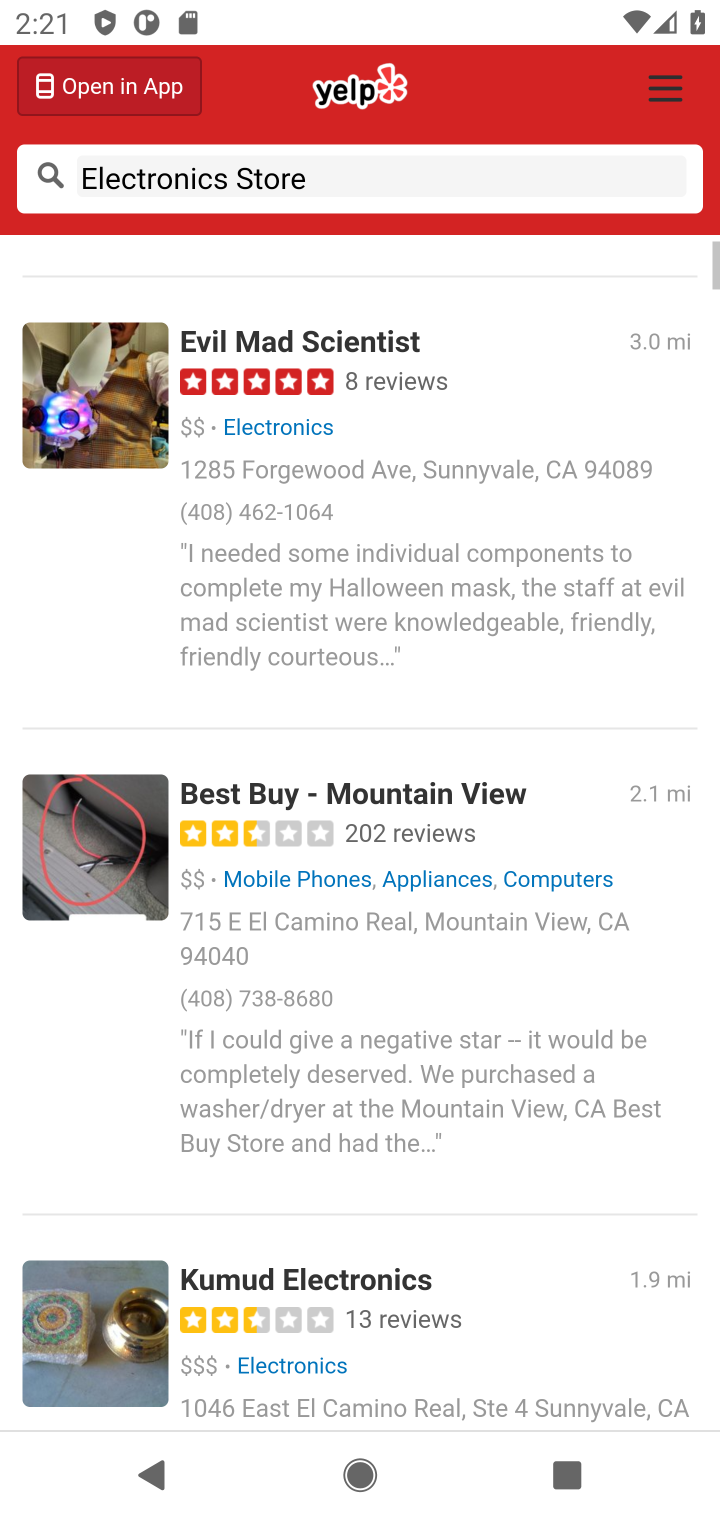
Step 32: click (557, 740)
Your task to perform on an android device: Find the nearest electronics store that's open now Image 33: 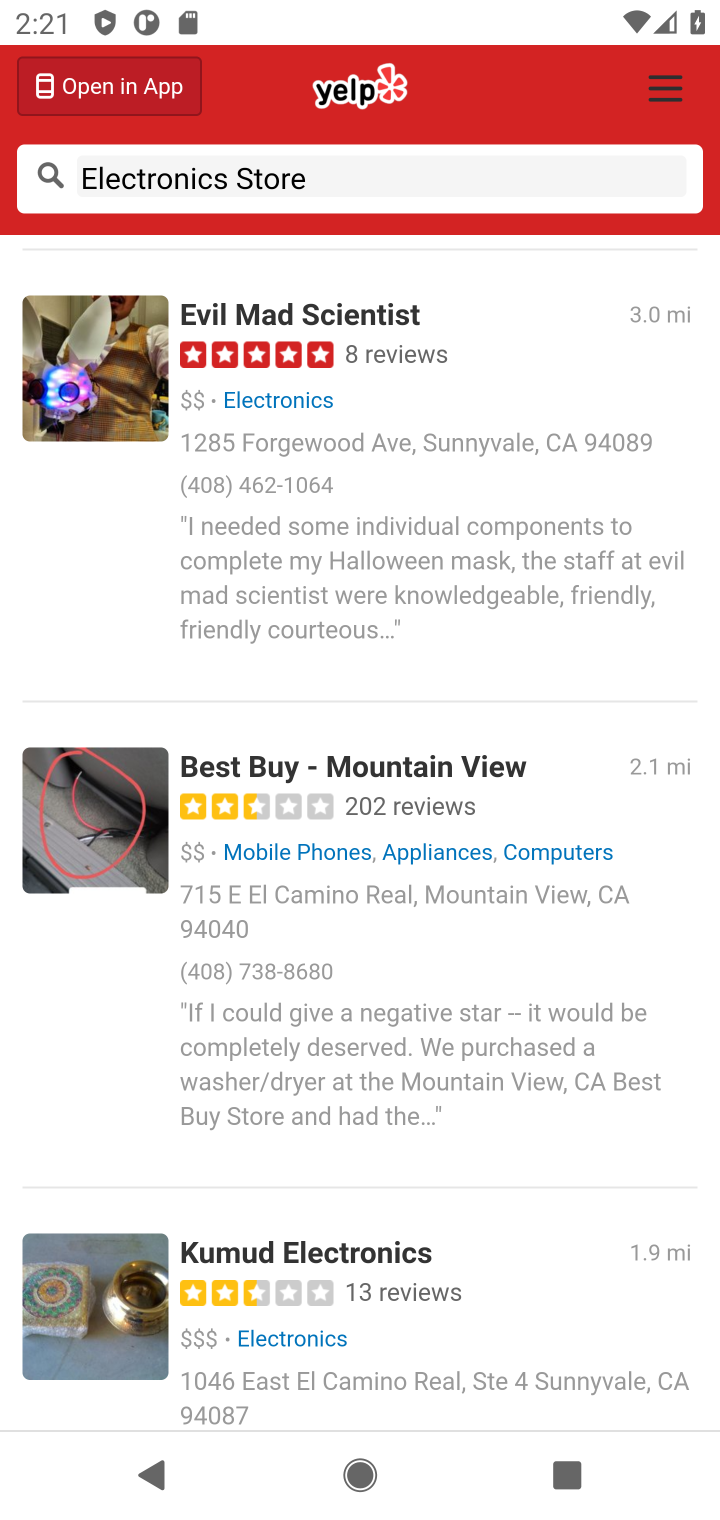
Step 33: drag from (237, 617) to (249, 539)
Your task to perform on an android device: Find the nearest electronics store that's open now Image 34: 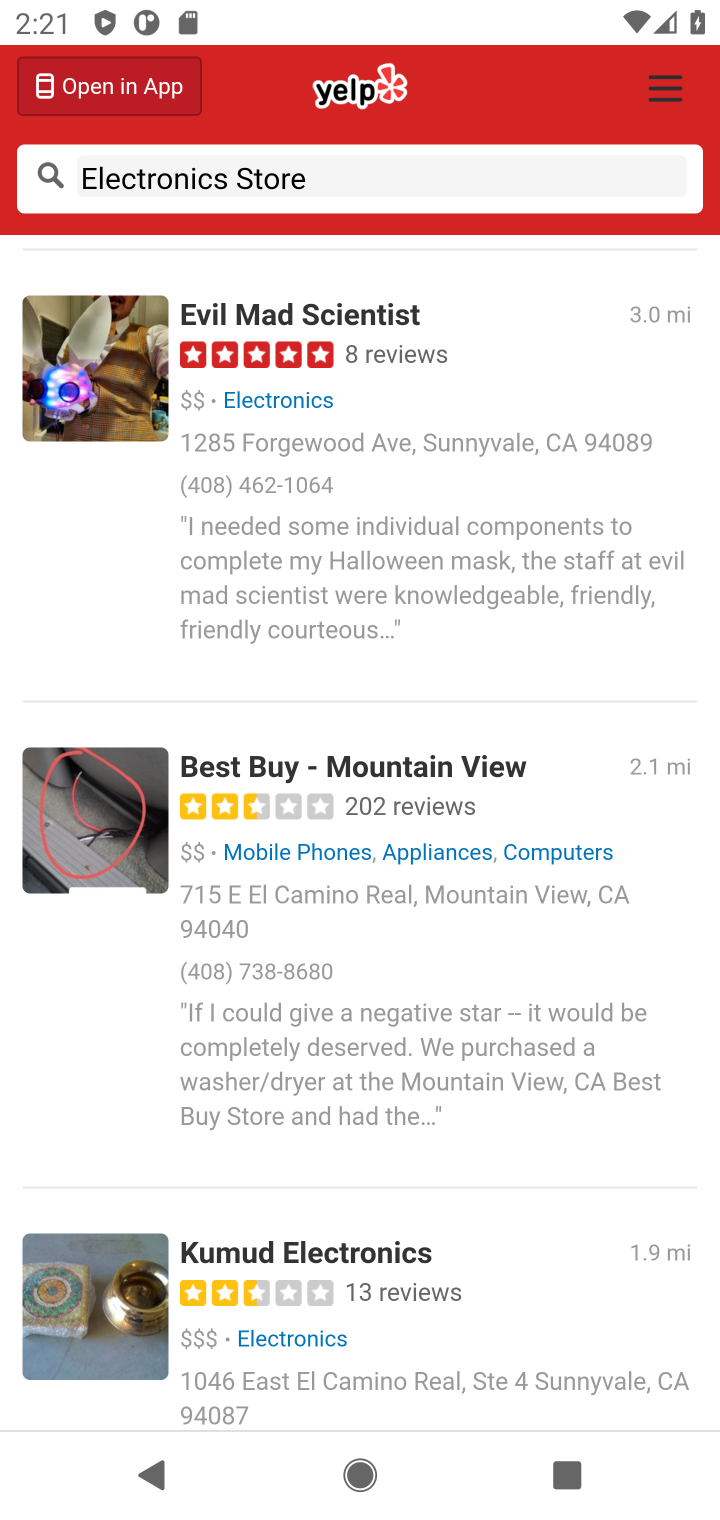
Step 34: drag from (413, 815) to (589, 395)
Your task to perform on an android device: Find the nearest electronics store that's open now Image 35: 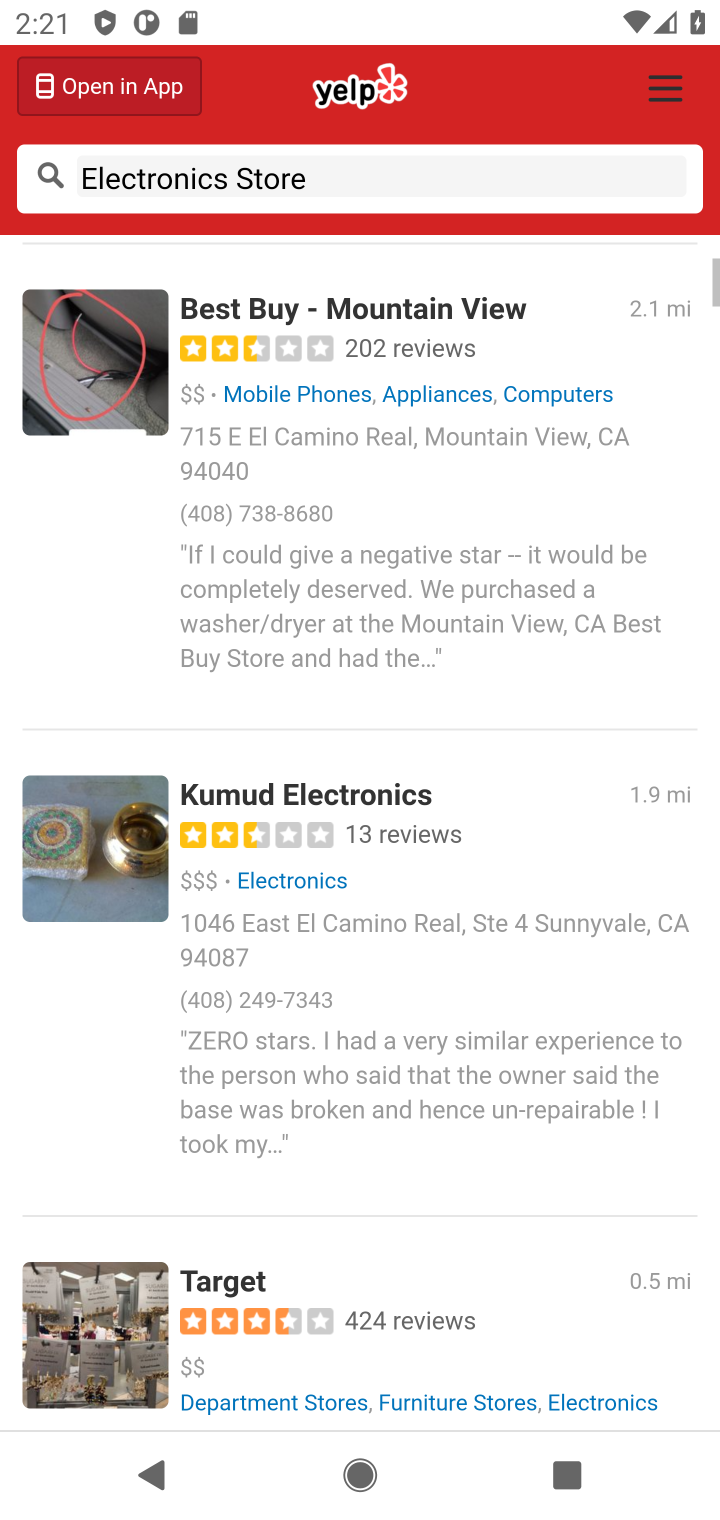
Step 35: drag from (564, 569) to (547, 319)
Your task to perform on an android device: Find the nearest electronics store that's open now Image 36: 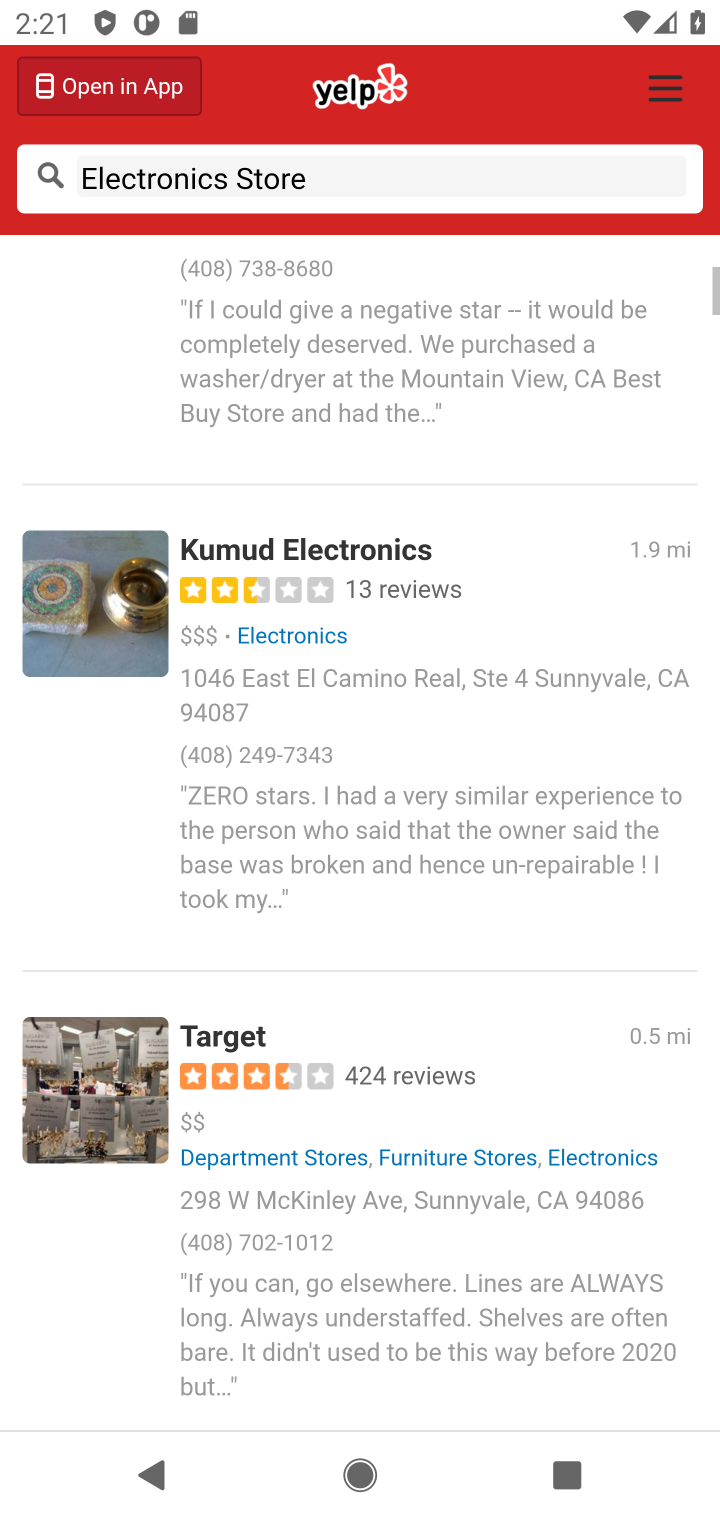
Step 36: drag from (629, 491) to (606, 203)
Your task to perform on an android device: Find the nearest electronics store that's open now Image 37: 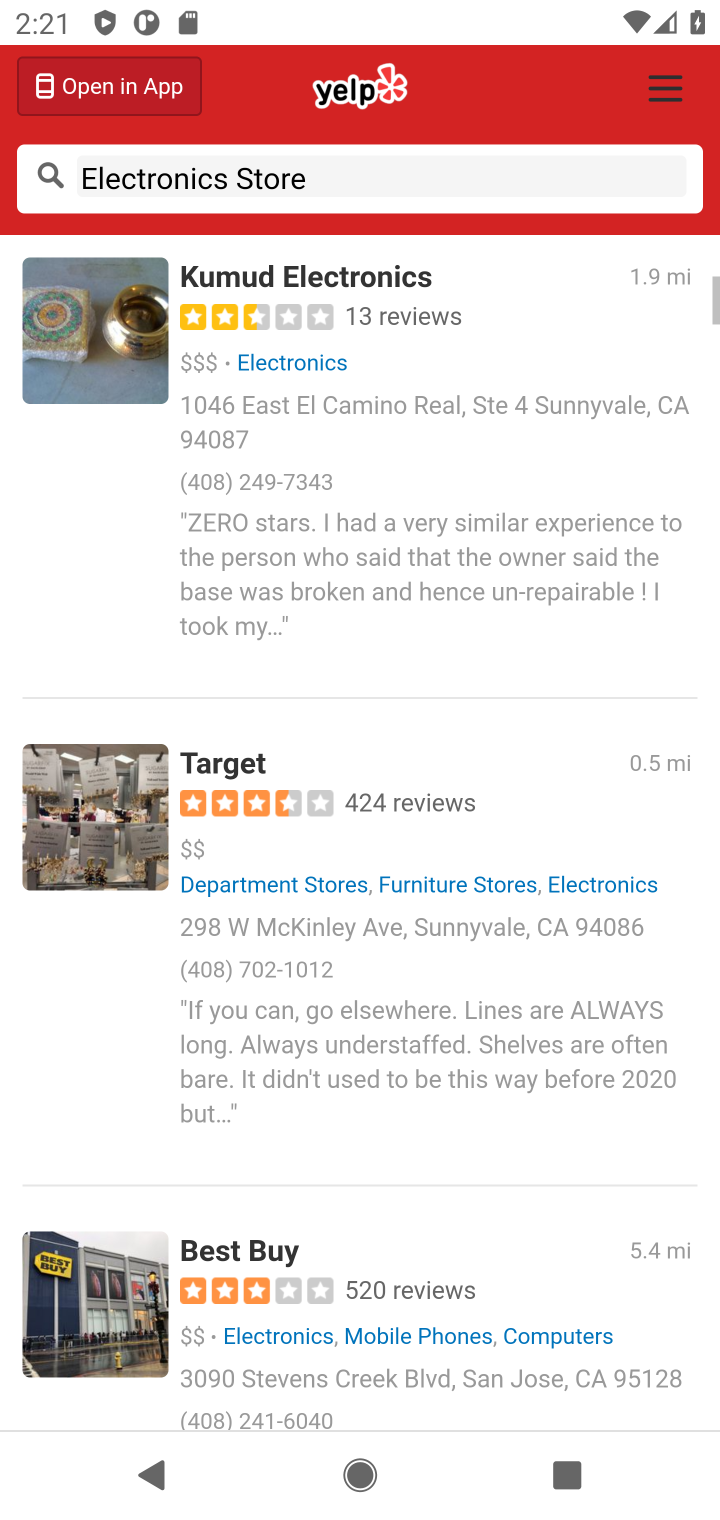
Step 37: drag from (587, 799) to (579, 251)
Your task to perform on an android device: Find the nearest electronics store that's open now Image 38: 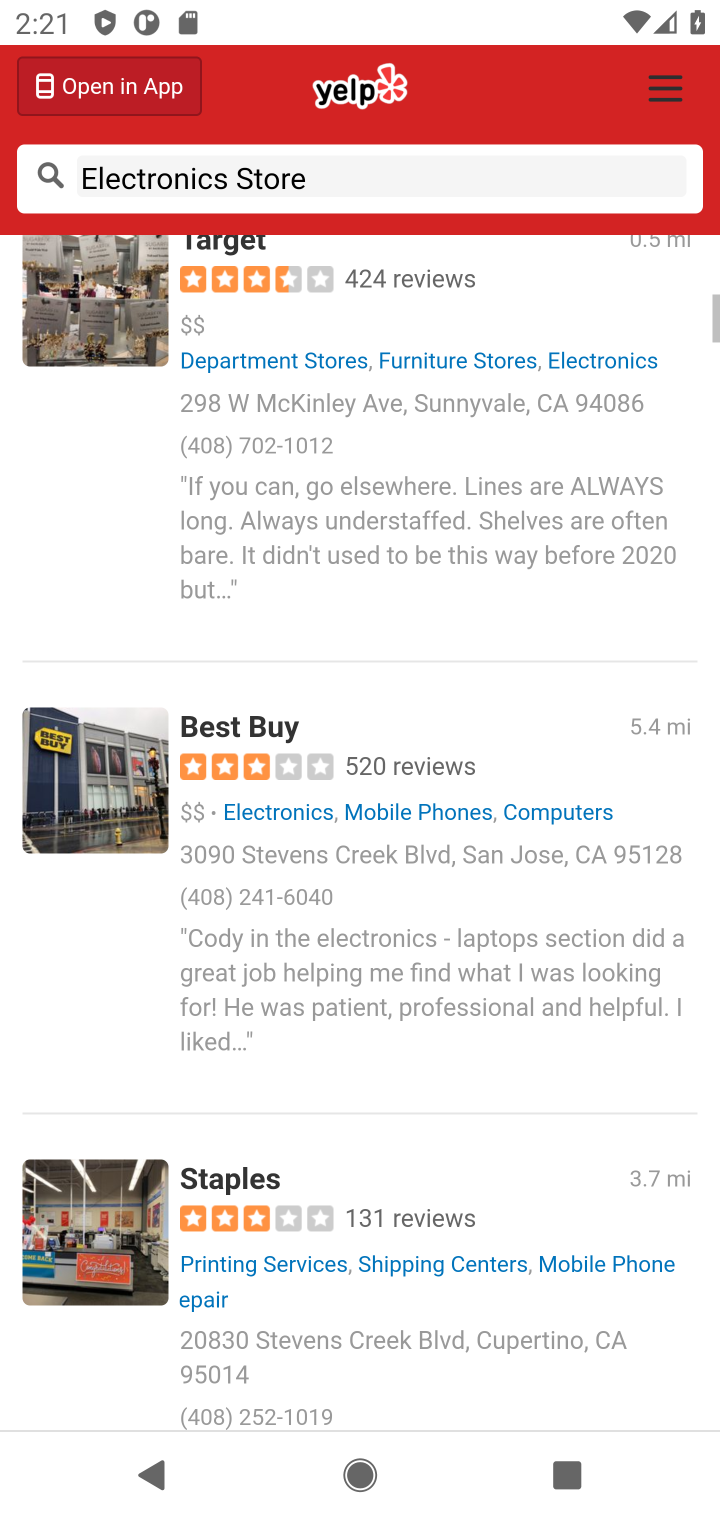
Step 38: drag from (578, 804) to (533, 224)
Your task to perform on an android device: Find the nearest electronics store that's open now Image 39: 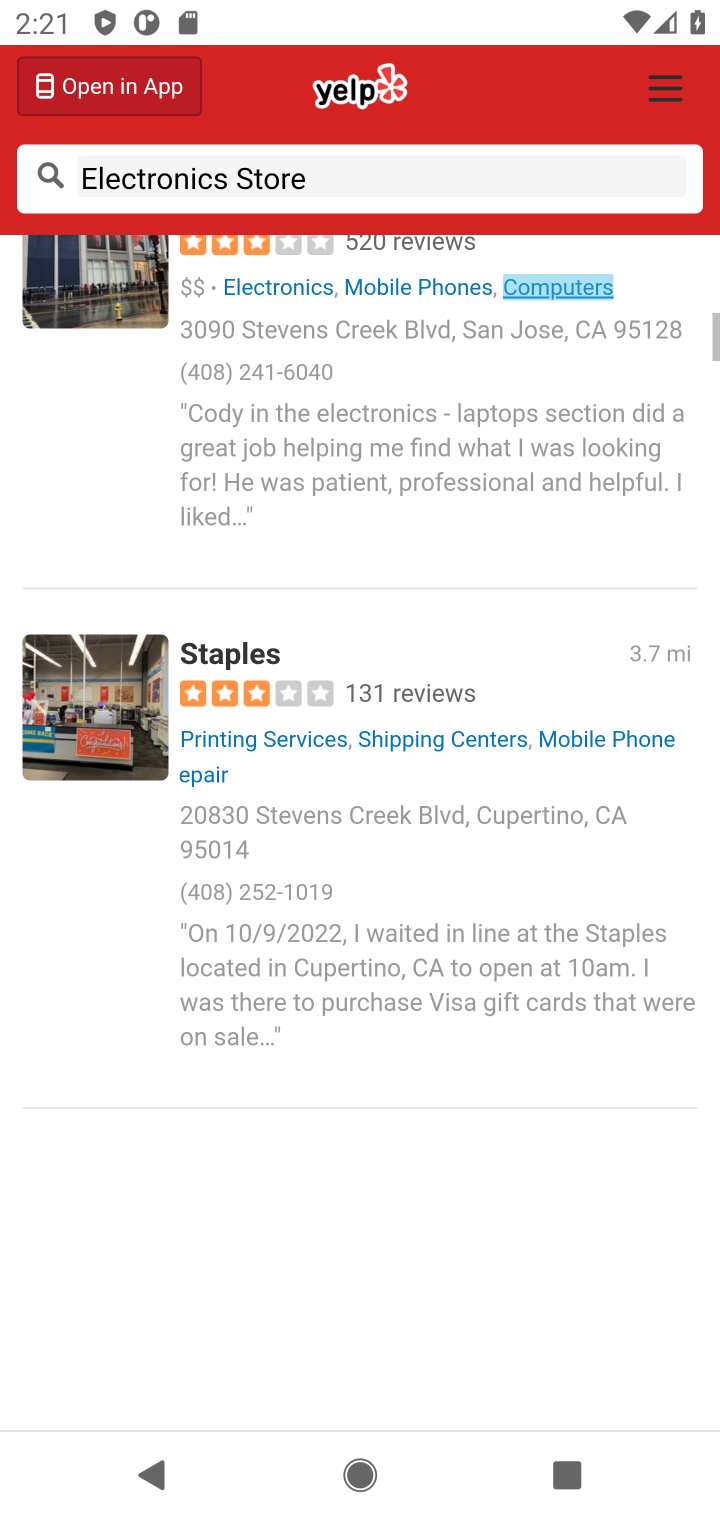
Step 39: click (416, 269)
Your task to perform on an android device: Find the nearest electronics store that's open now Image 40: 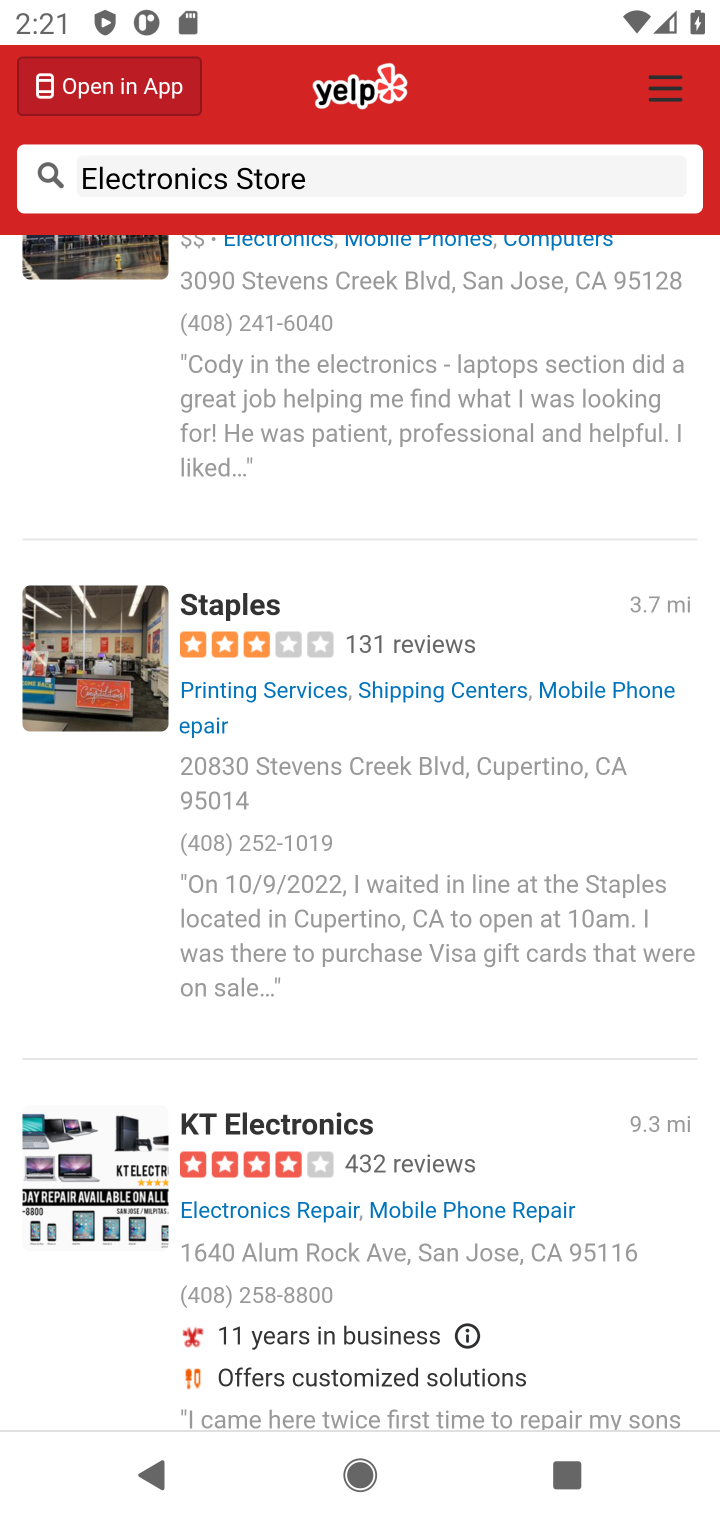
Step 40: task complete